Your task to perform on an android device: Find a nice sofa on eBay Image 0: 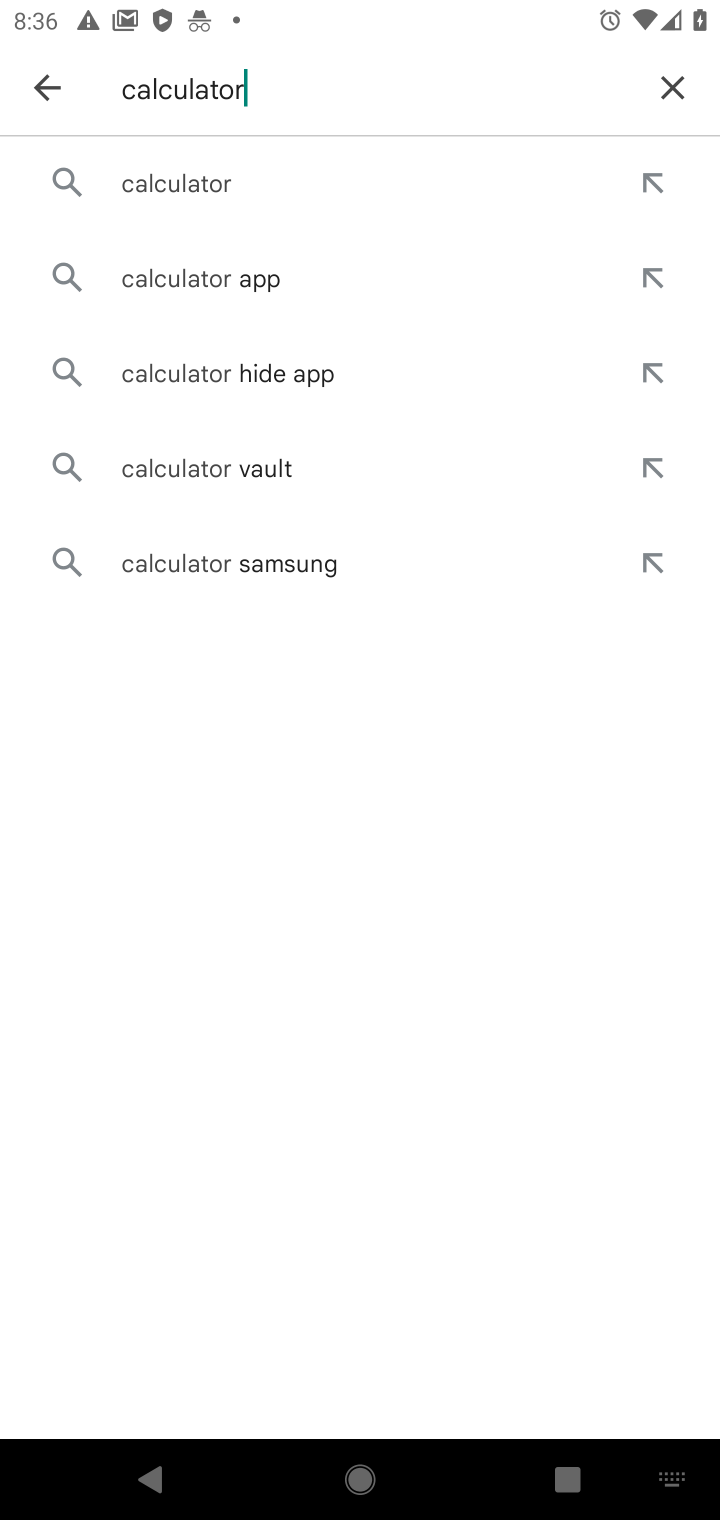
Step 0: press home button
Your task to perform on an android device: Find a nice sofa on eBay Image 1: 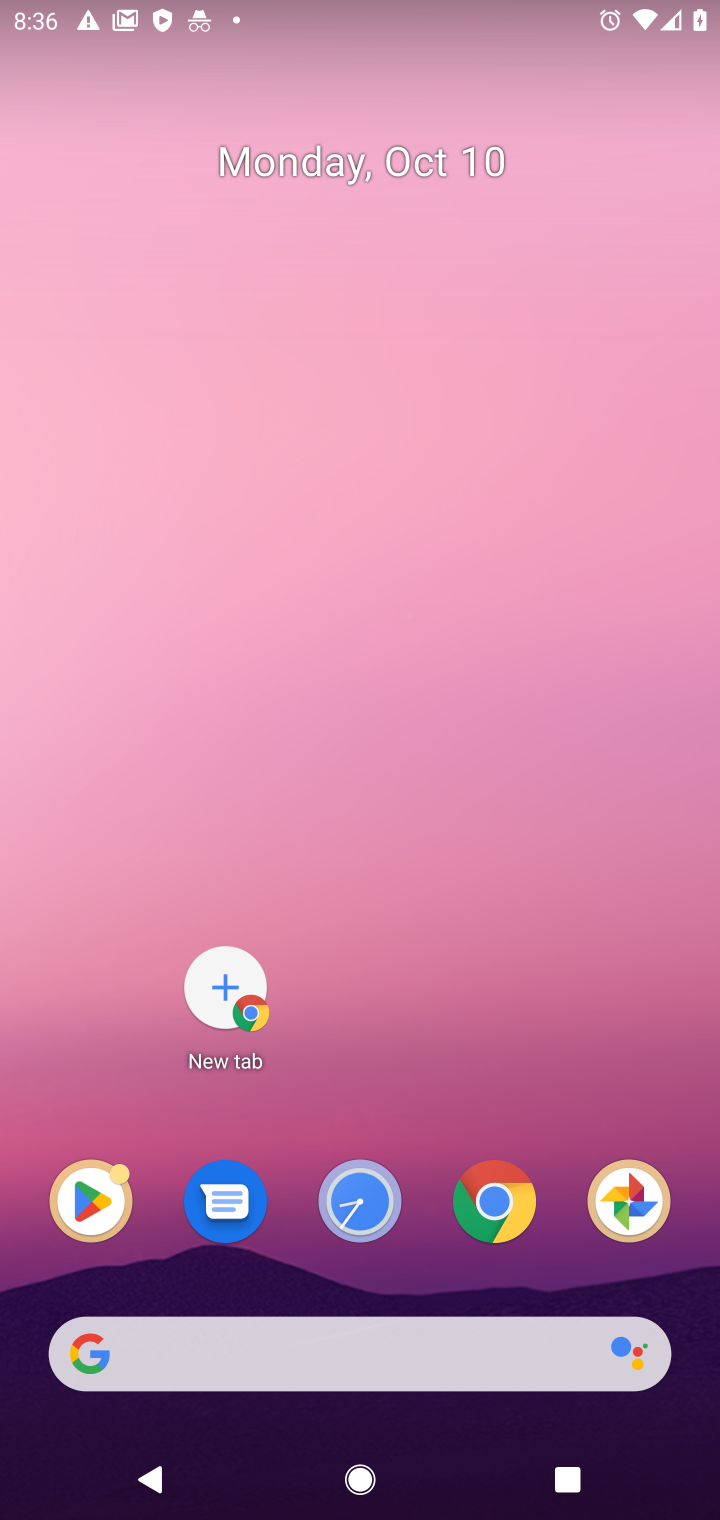
Step 1: click (228, 994)
Your task to perform on an android device: Find a nice sofa on eBay Image 2: 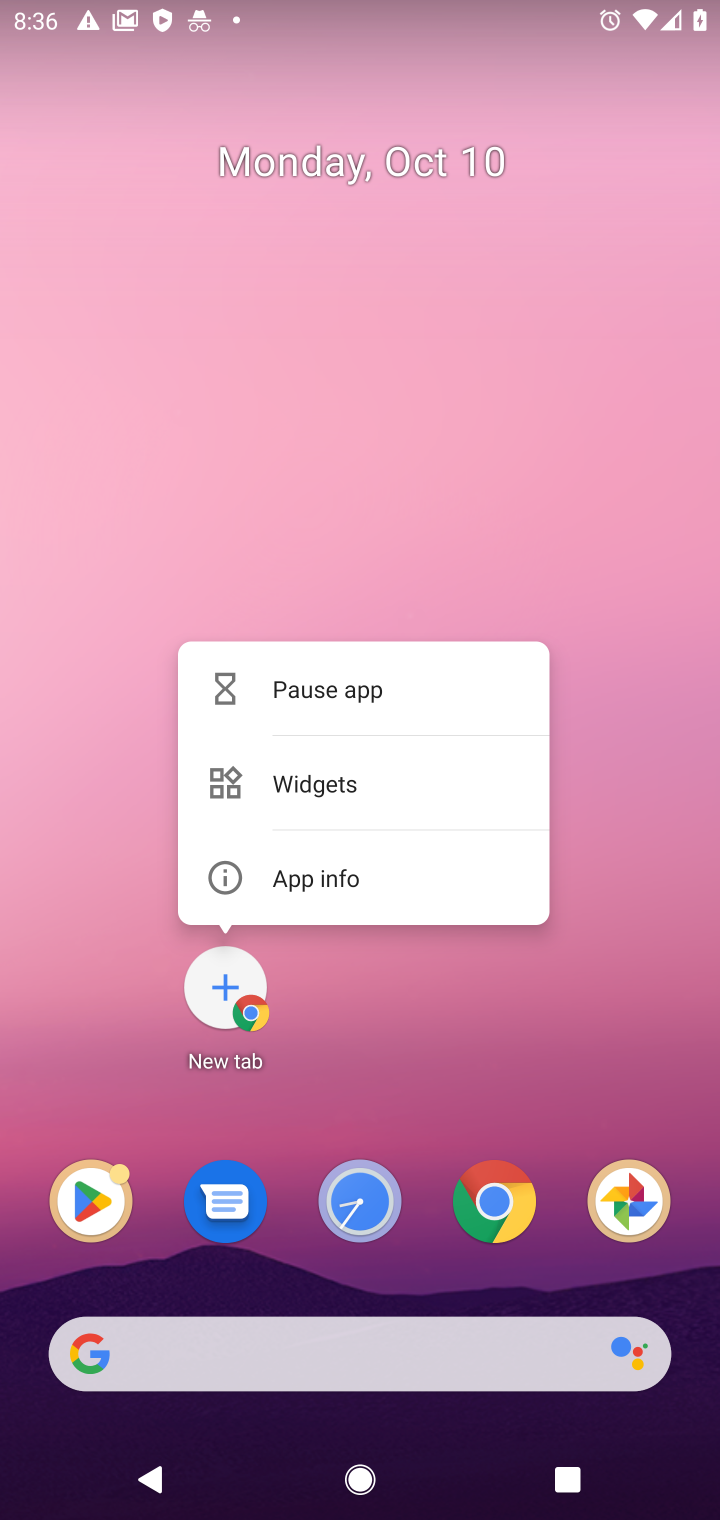
Step 2: click (421, 503)
Your task to perform on an android device: Find a nice sofa on eBay Image 3: 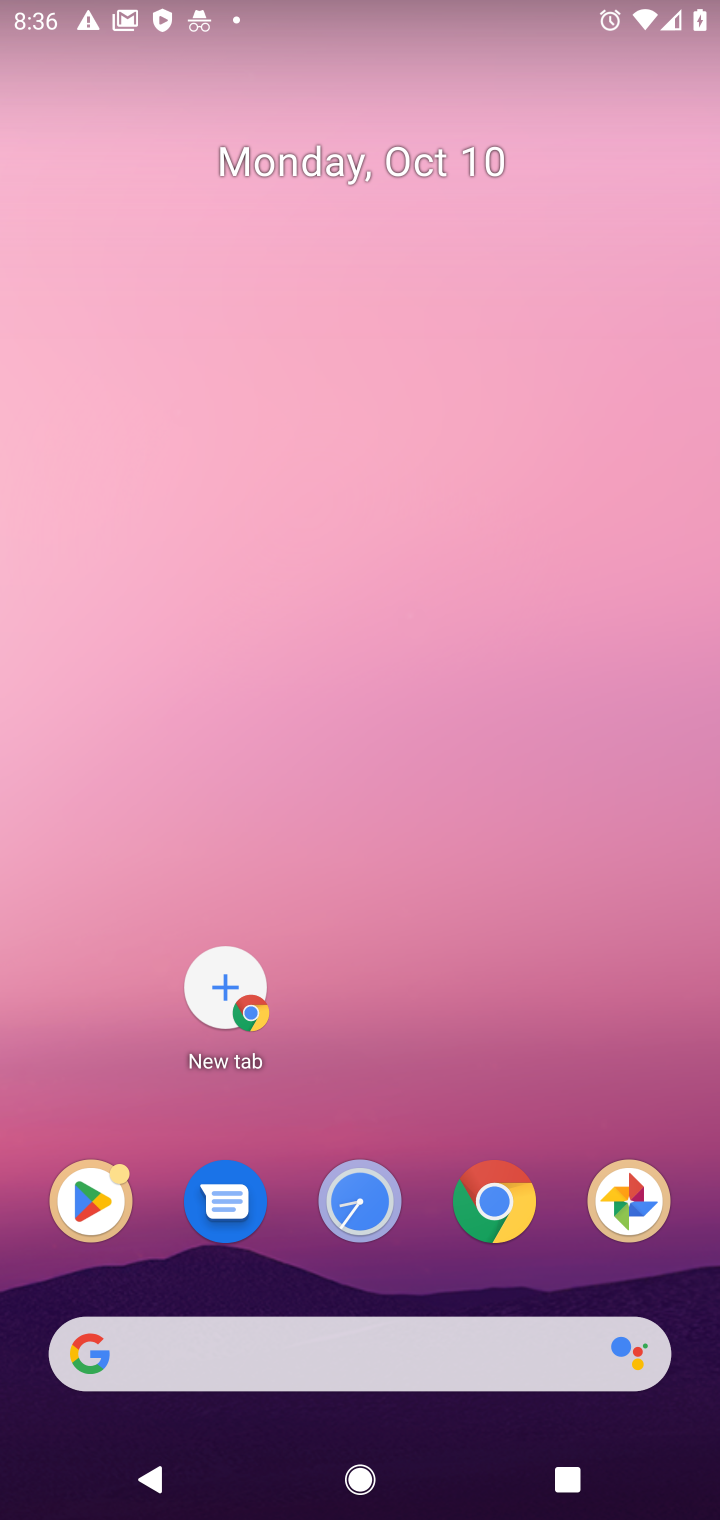
Step 3: click (241, 1018)
Your task to perform on an android device: Find a nice sofa on eBay Image 4: 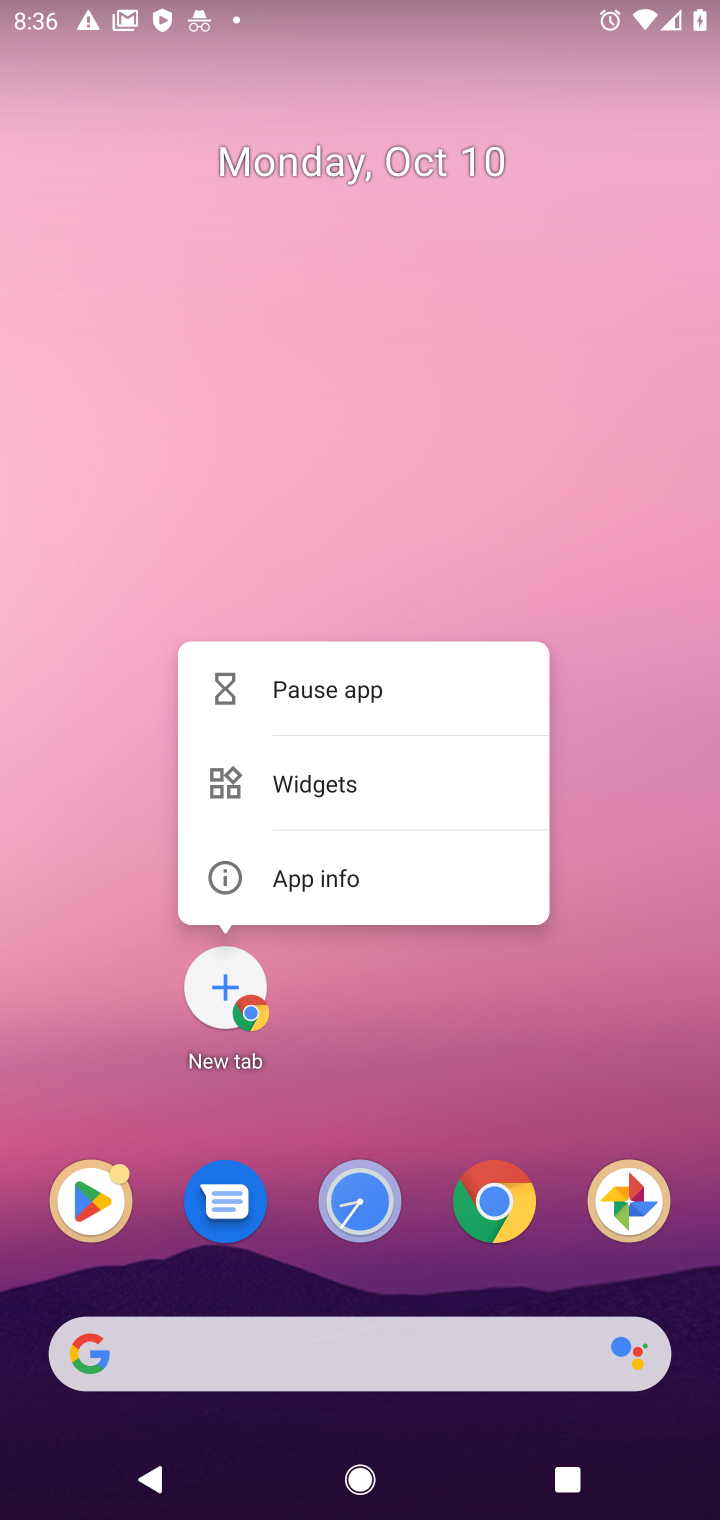
Step 4: drag from (395, 1447) to (693, 25)
Your task to perform on an android device: Find a nice sofa on eBay Image 5: 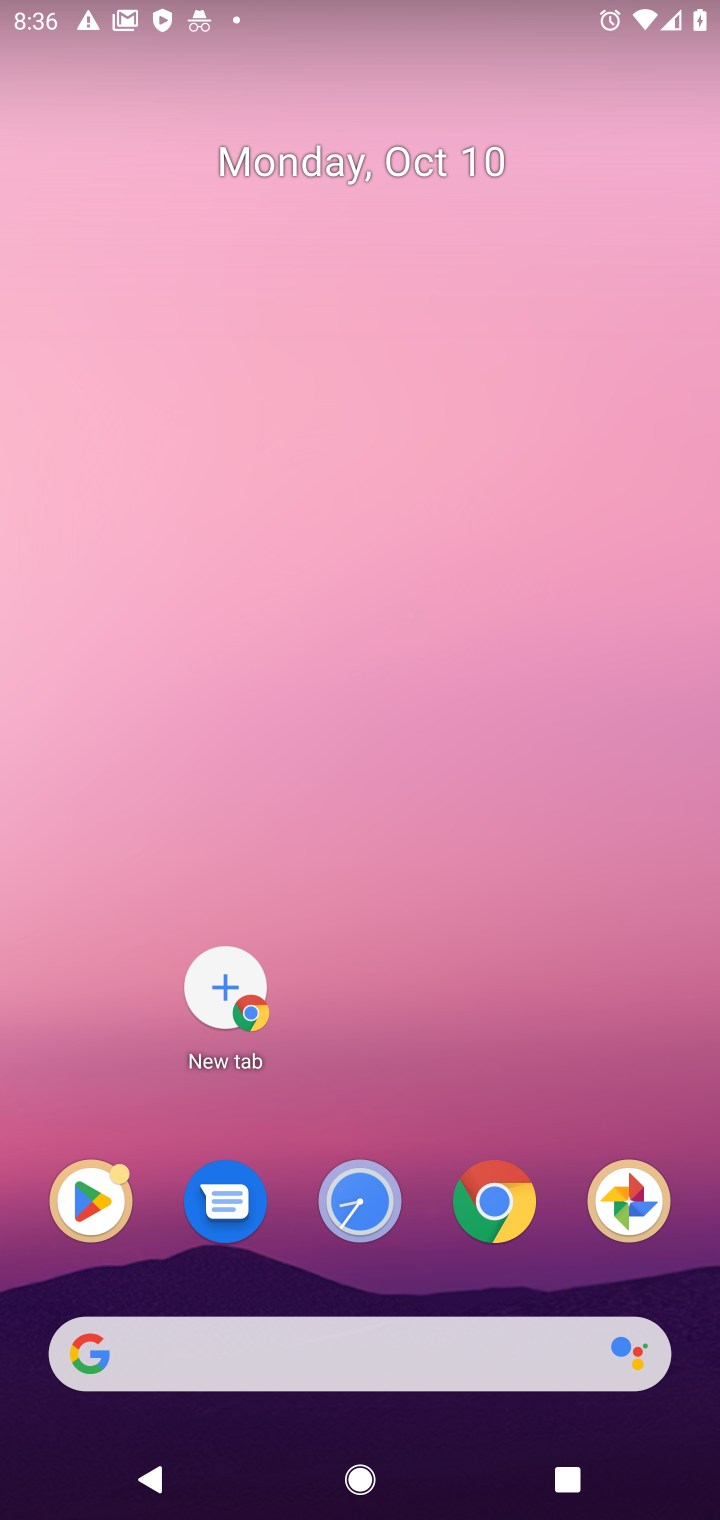
Step 5: drag from (367, 1267) to (403, 37)
Your task to perform on an android device: Find a nice sofa on eBay Image 6: 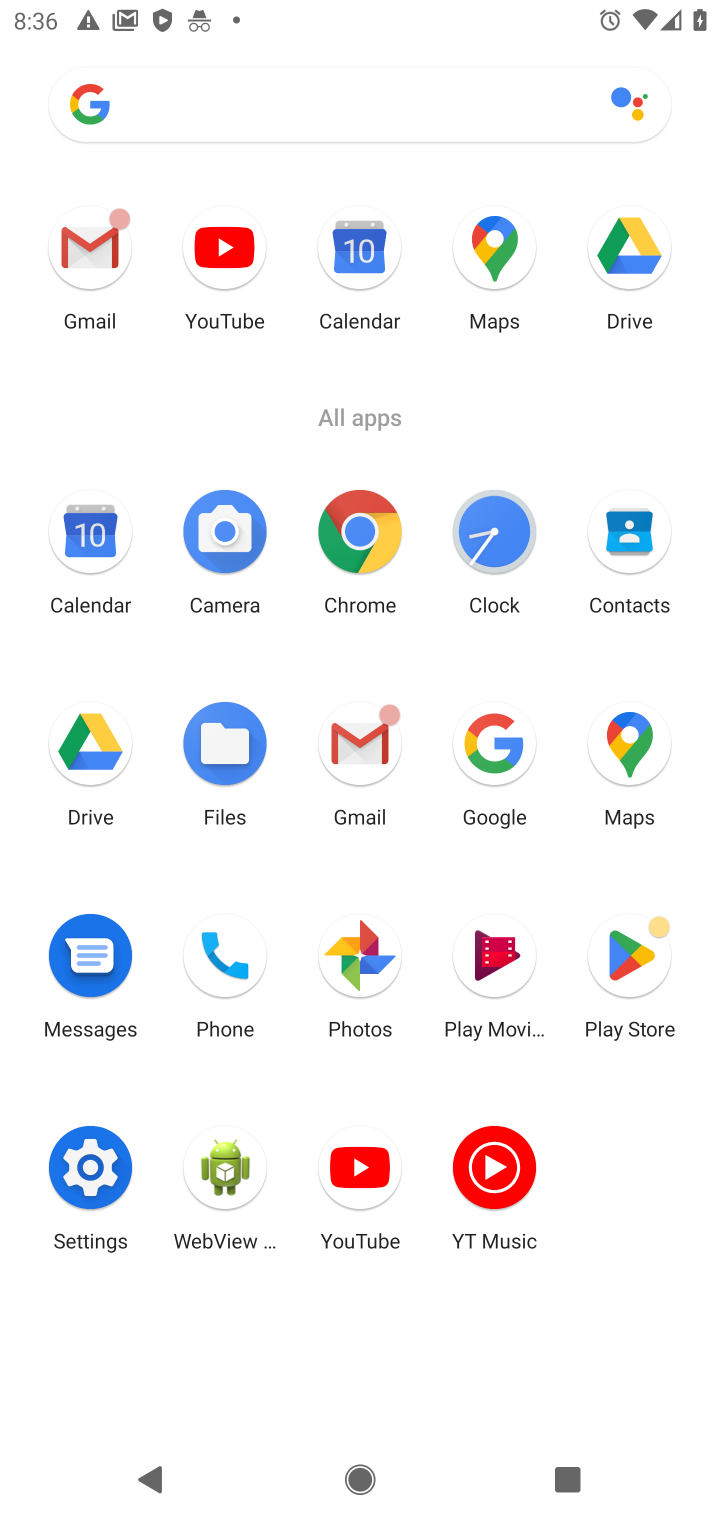
Step 6: click (369, 558)
Your task to perform on an android device: Find a nice sofa on eBay Image 7: 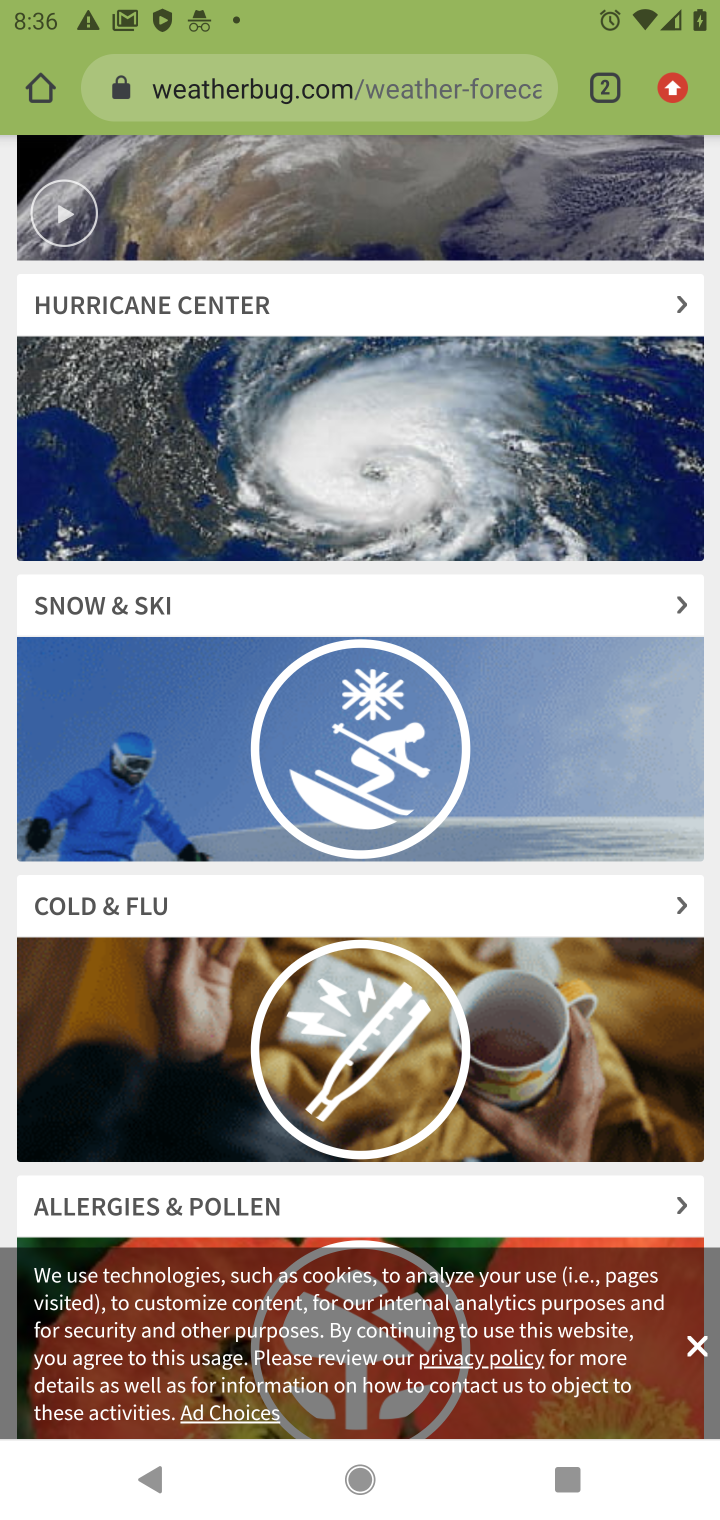
Step 7: click (254, 60)
Your task to perform on an android device: Find a nice sofa on eBay Image 8: 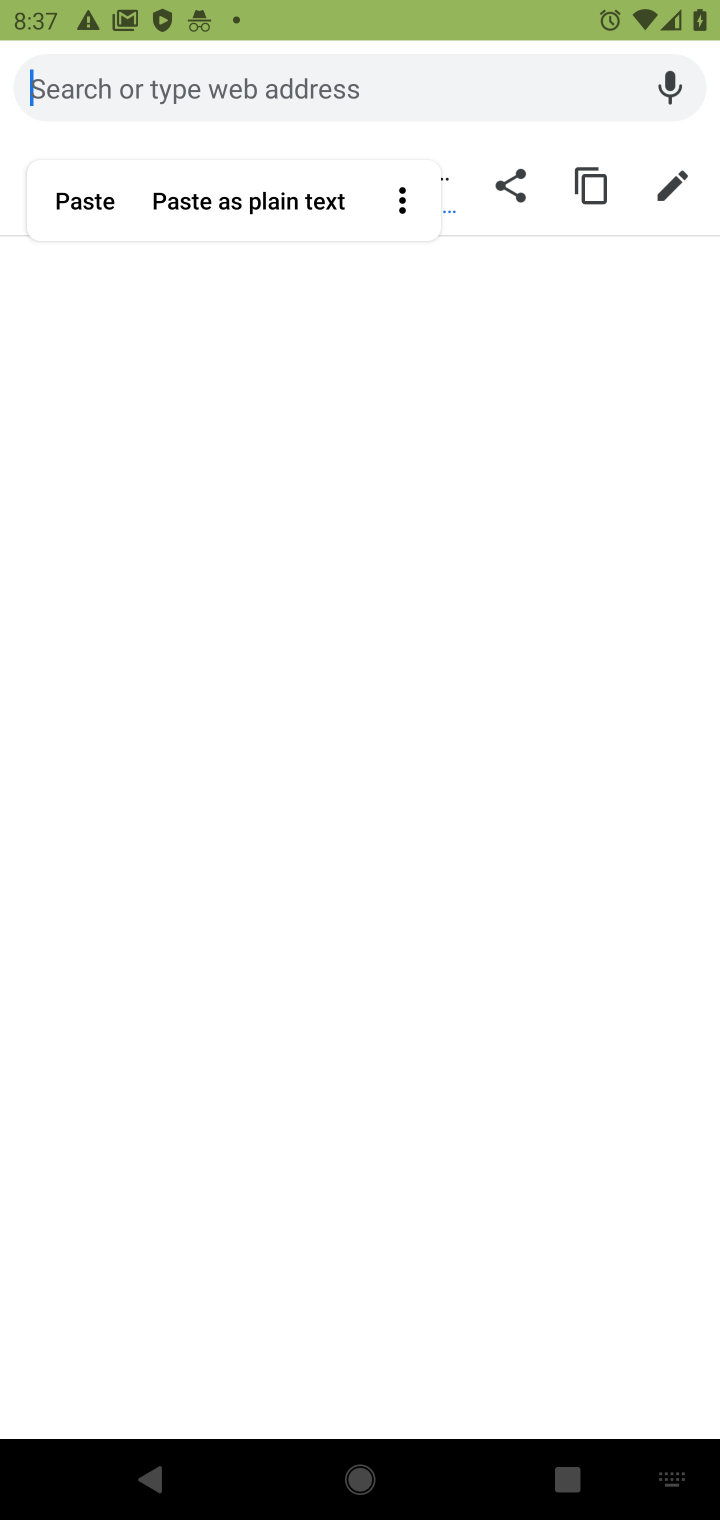
Step 8: type "a nice sofa on eBay"
Your task to perform on an android device: Find a nice sofa on eBay Image 9: 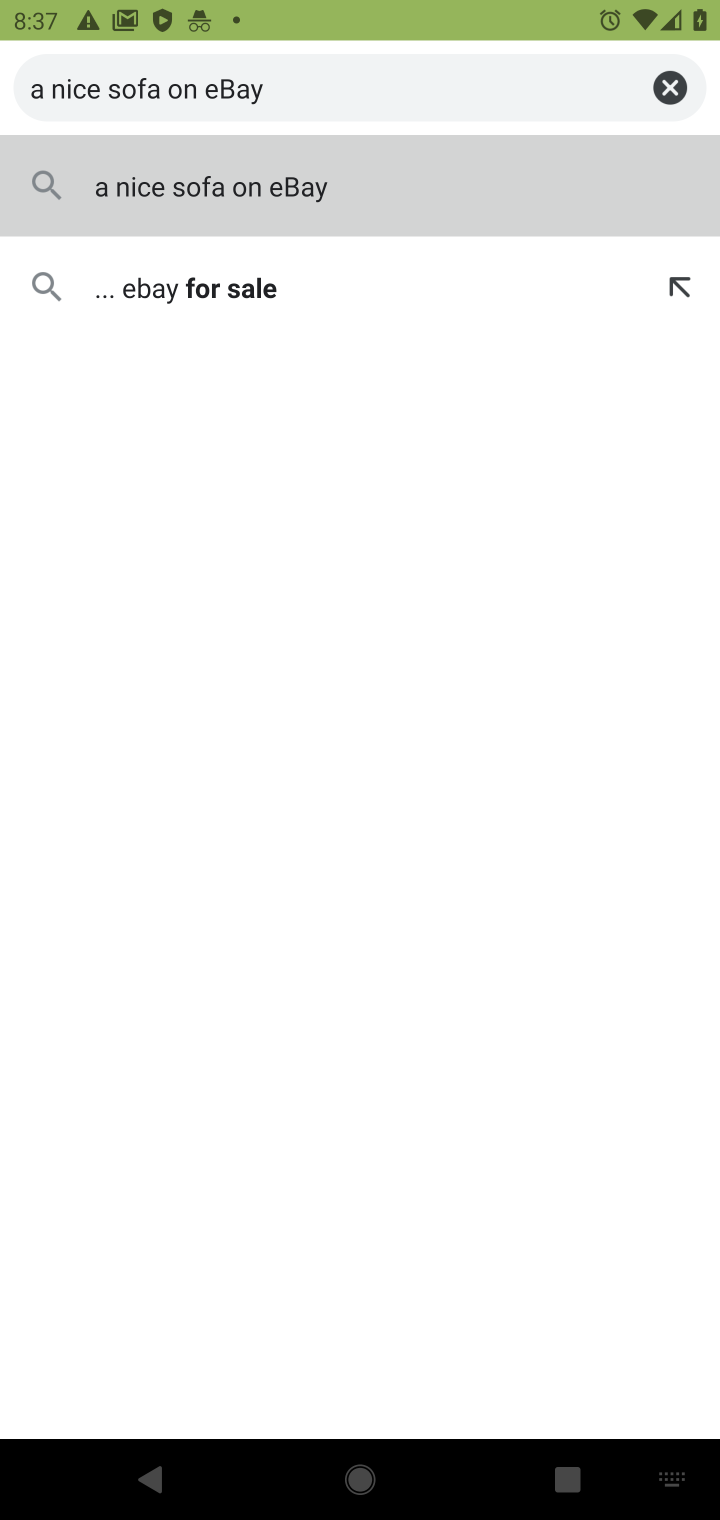
Step 9: type ""
Your task to perform on an android device: Find a nice sofa on eBay Image 10: 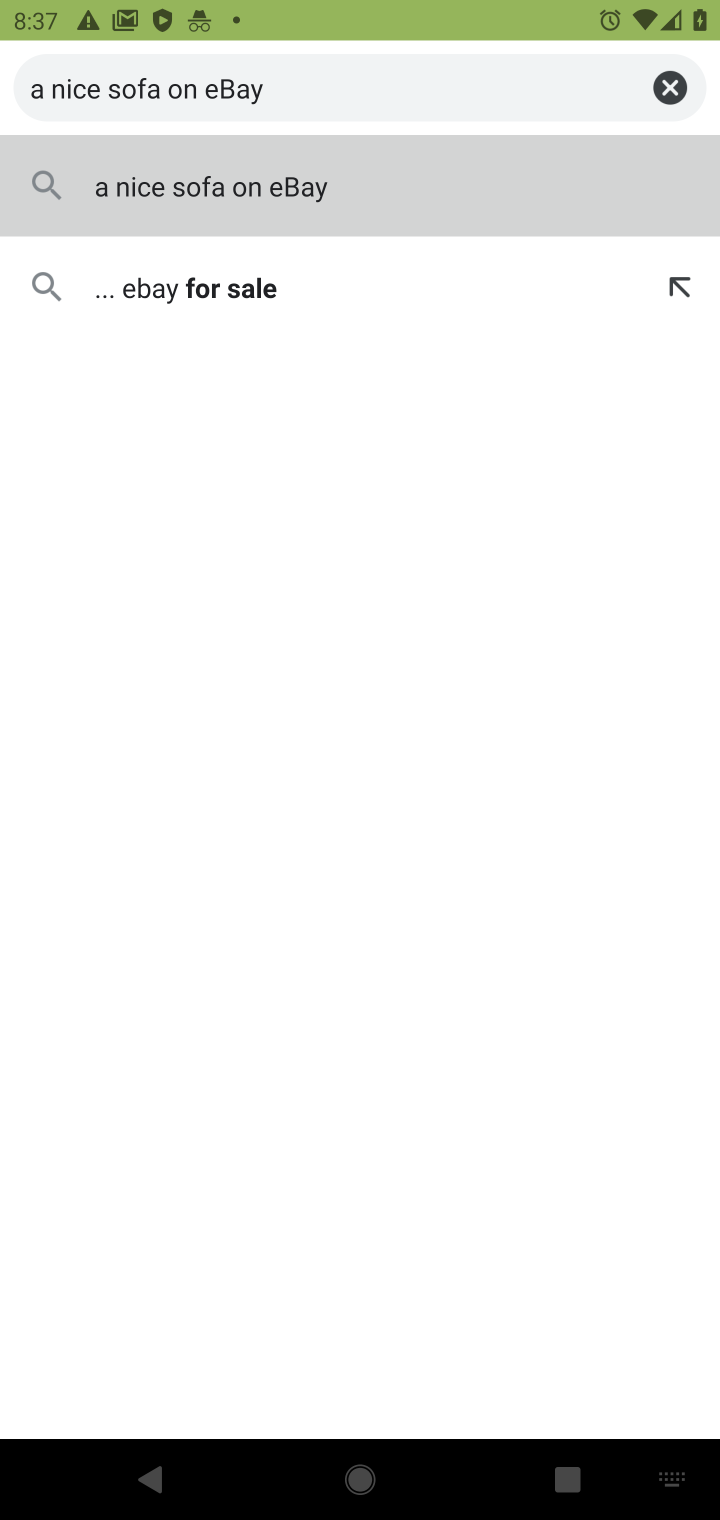
Step 10: press enter
Your task to perform on an android device: Find a nice sofa on eBay Image 11: 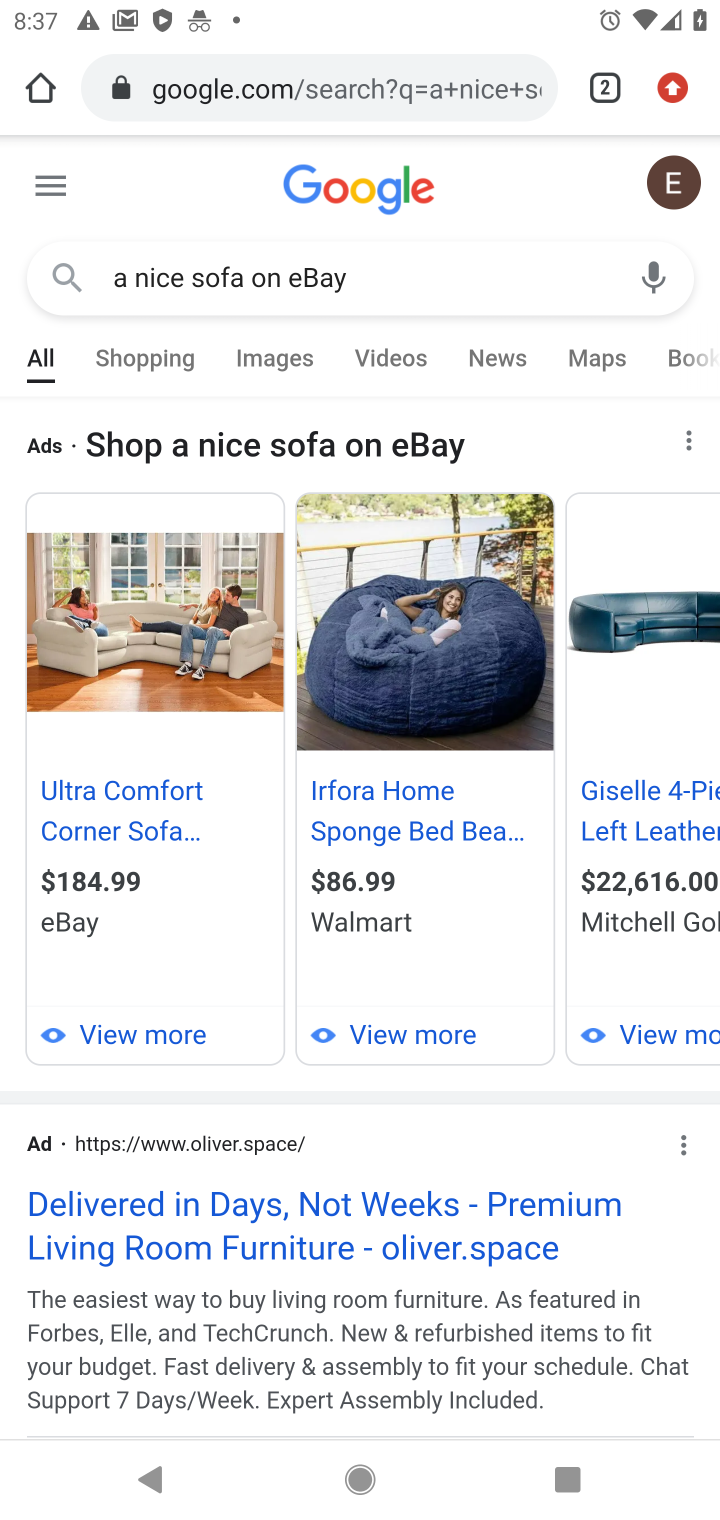
Step 11: click (97, 821)
Your task to perform on an android device: Find a nice sofa on eBay Image 12: 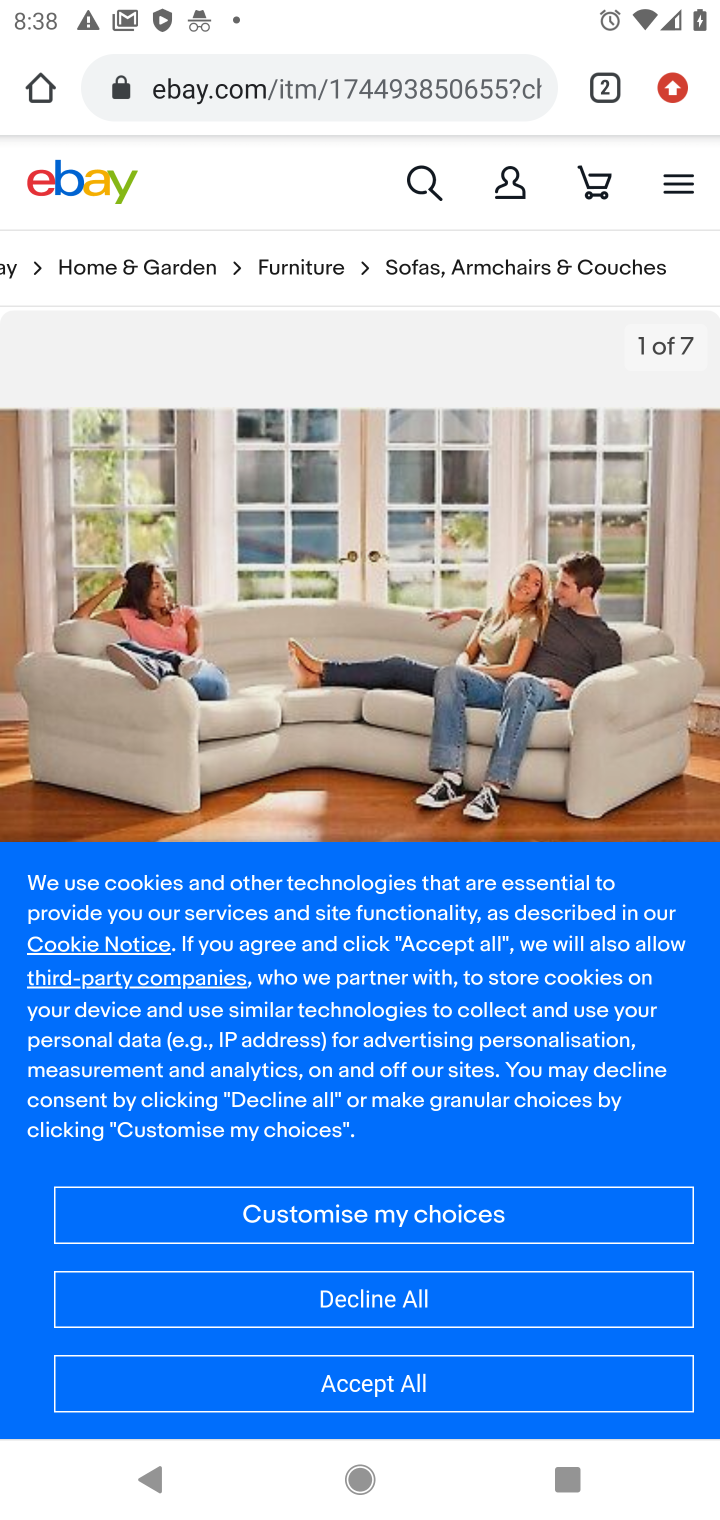
Step 12: drag from (461, 851) to (616, 369)
Your task to perform on an android device: Find a nice sofa on eBay Image 13: 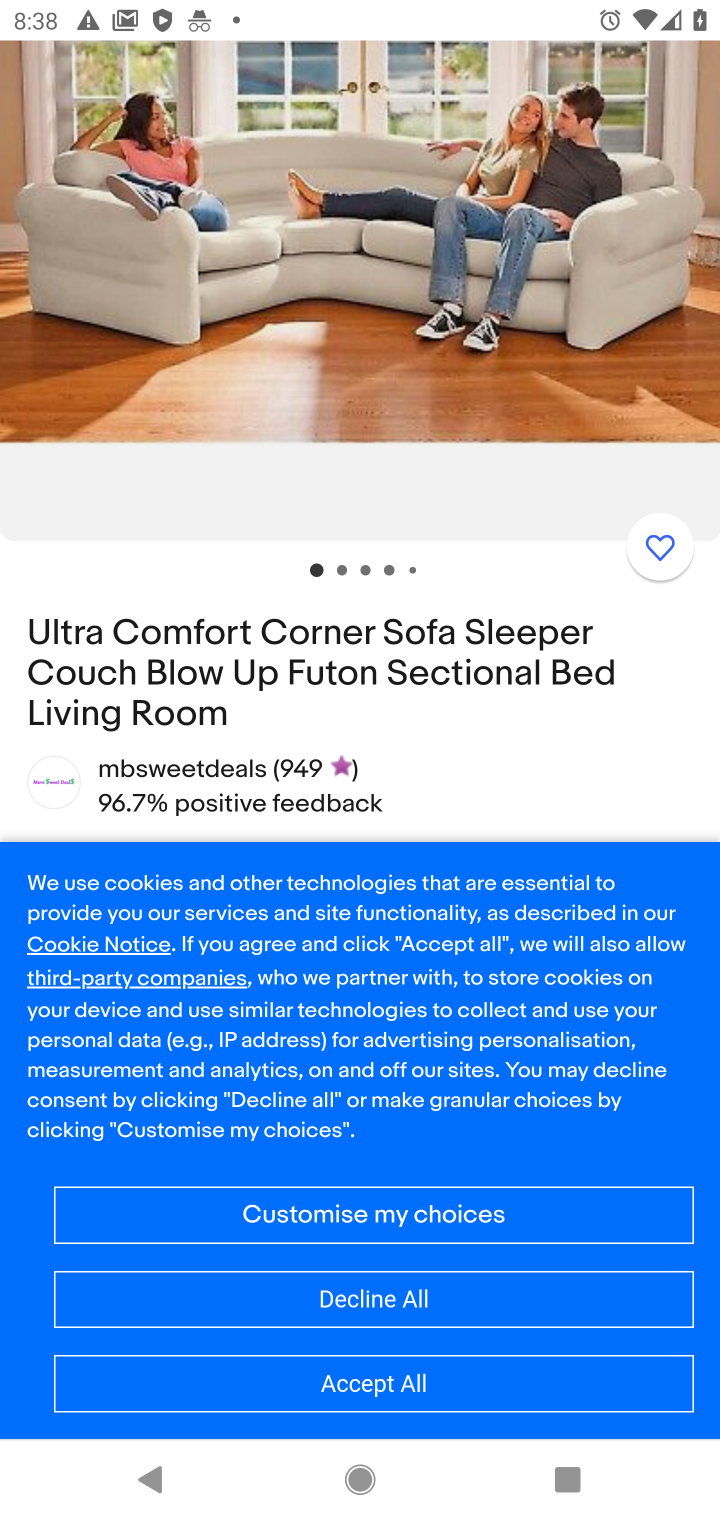
Step 13: click (387, 1384)
Your task to perform on an android device: Find a nice sofa on eBay Image 14: 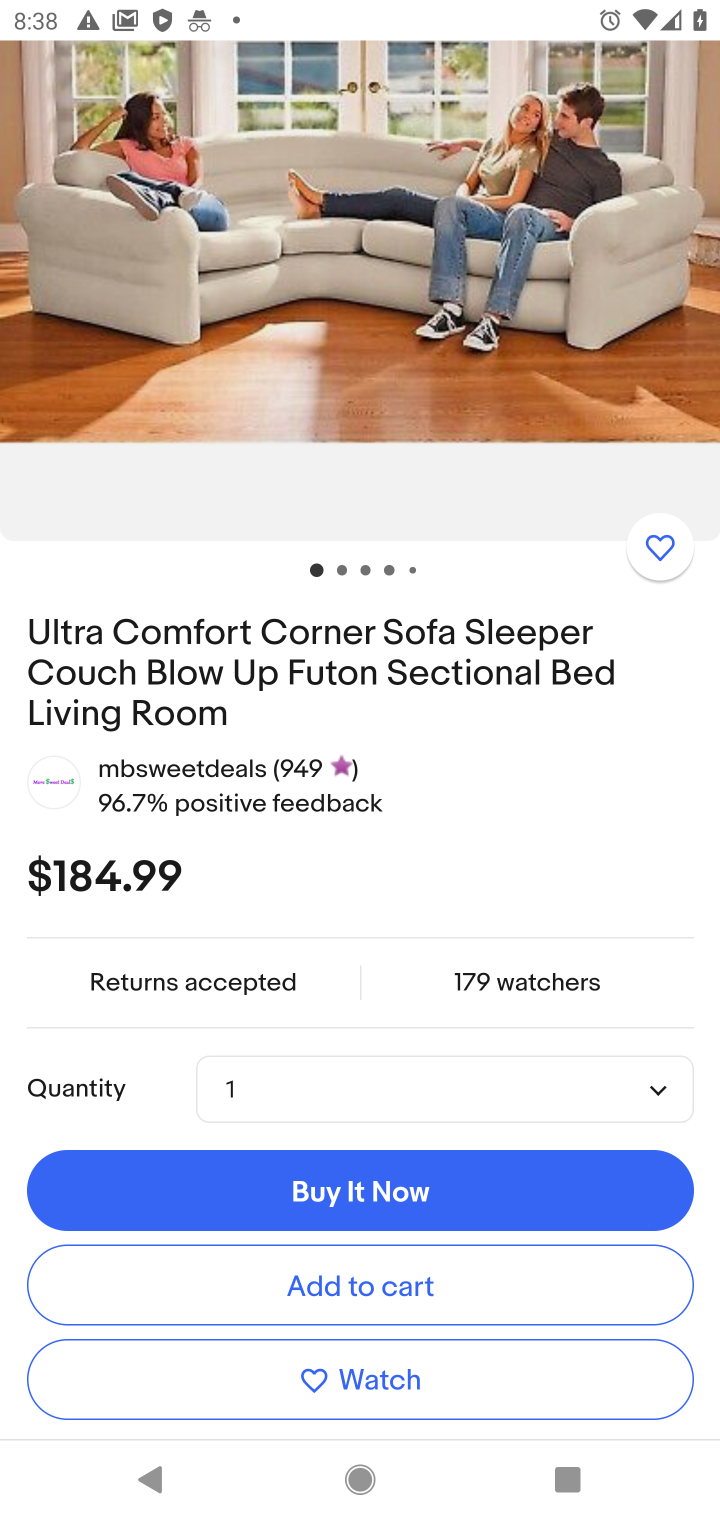
Step 14: click (373, 519)
Your task to perform on an android device: Find a nice sofa on eBay Image 15: 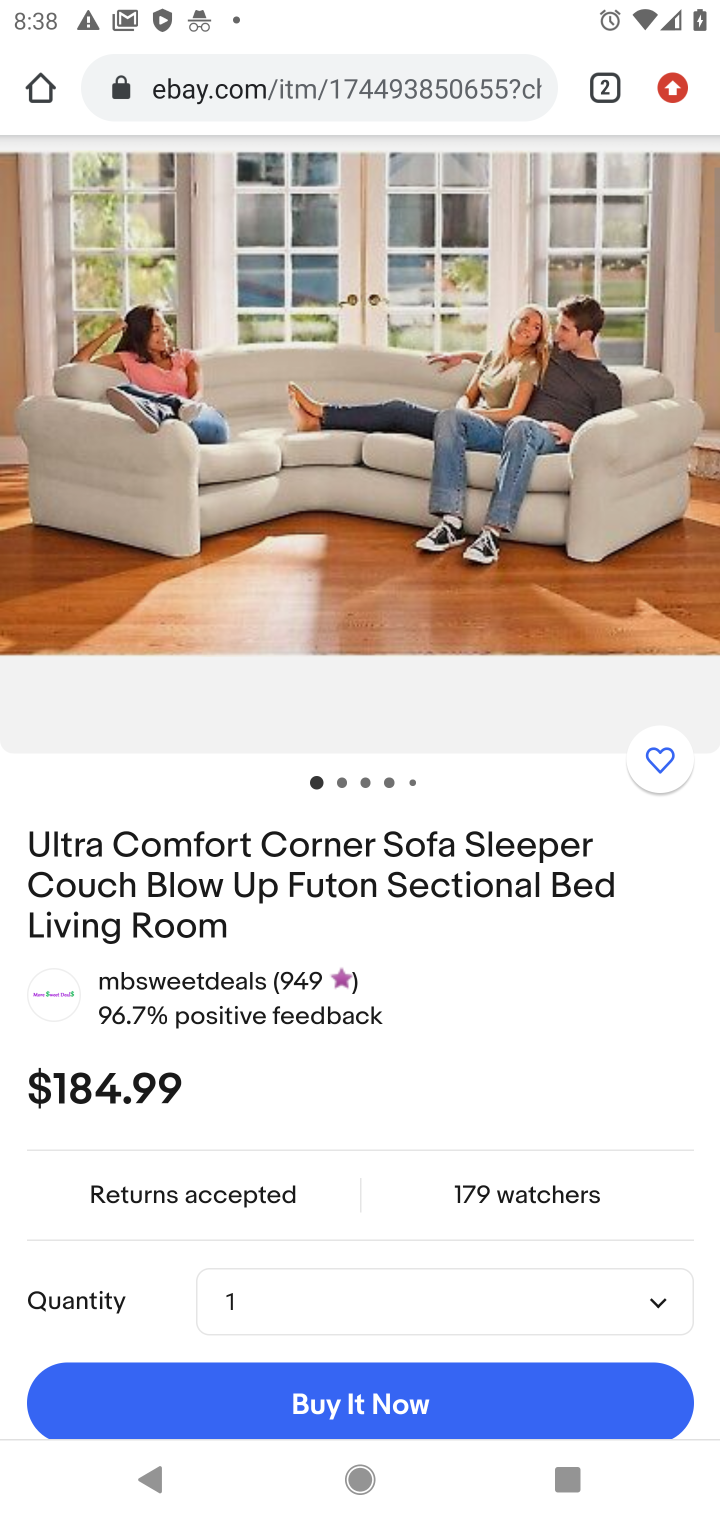
Step 15: drag from (348, 764) to (424, 296)
Your task to perform on an android device: Find a nice sofa on eBay Image 16: 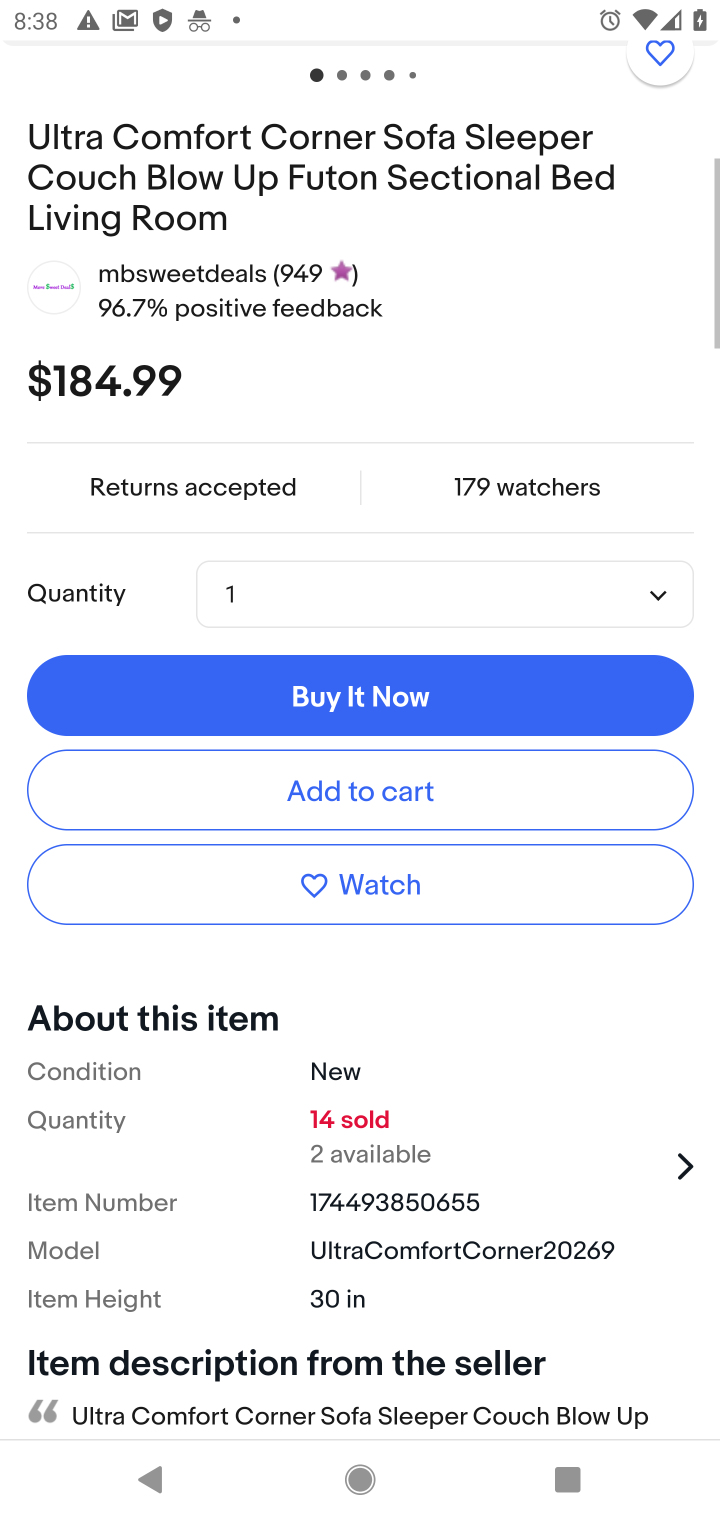
Step 16: drag from (371, 1094) to (467, 446)
Your task to perform on an android device: Find a nice sofa on eBay Image 17: 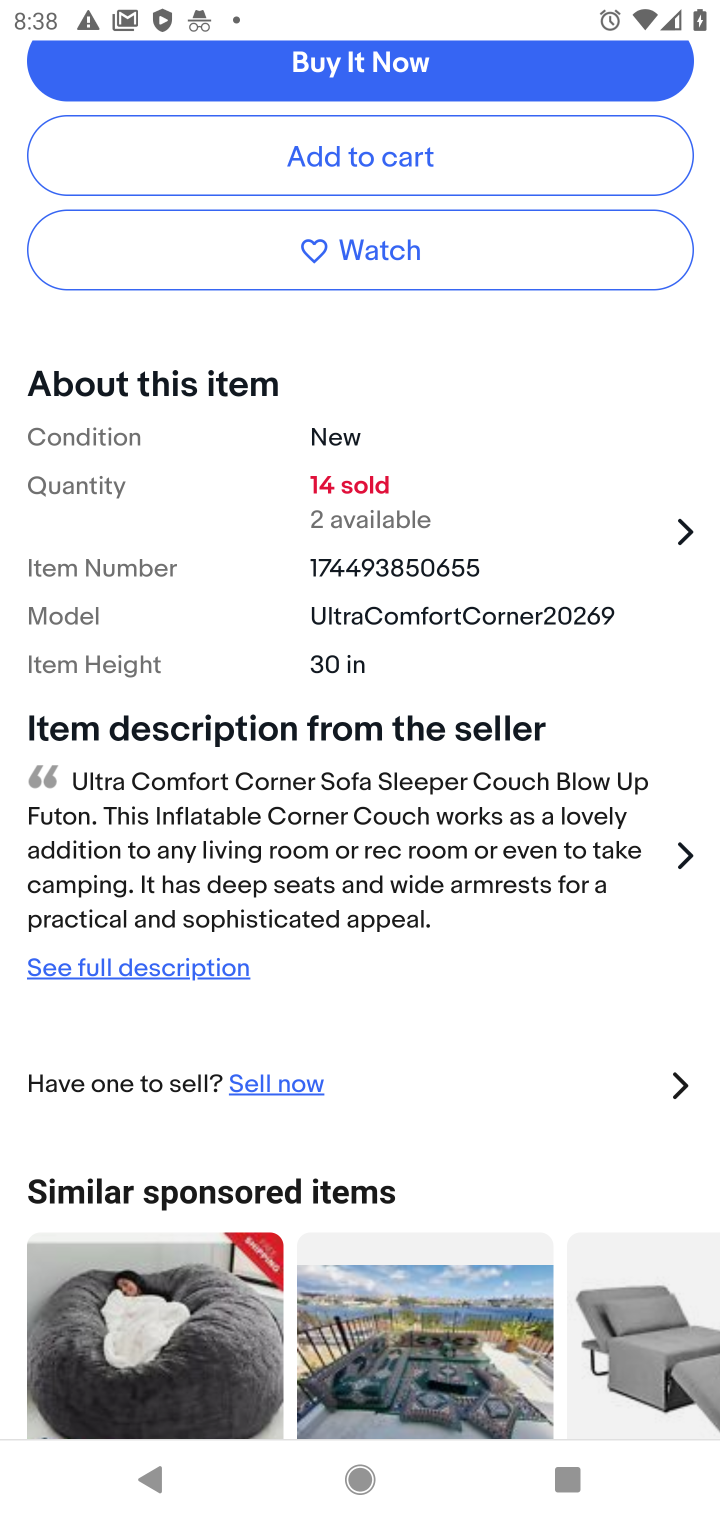
Step 17: drag from (347, 1229) to (531, 398)
Your task to perform on an android device: Find a nice sofa on eBay Image 18: 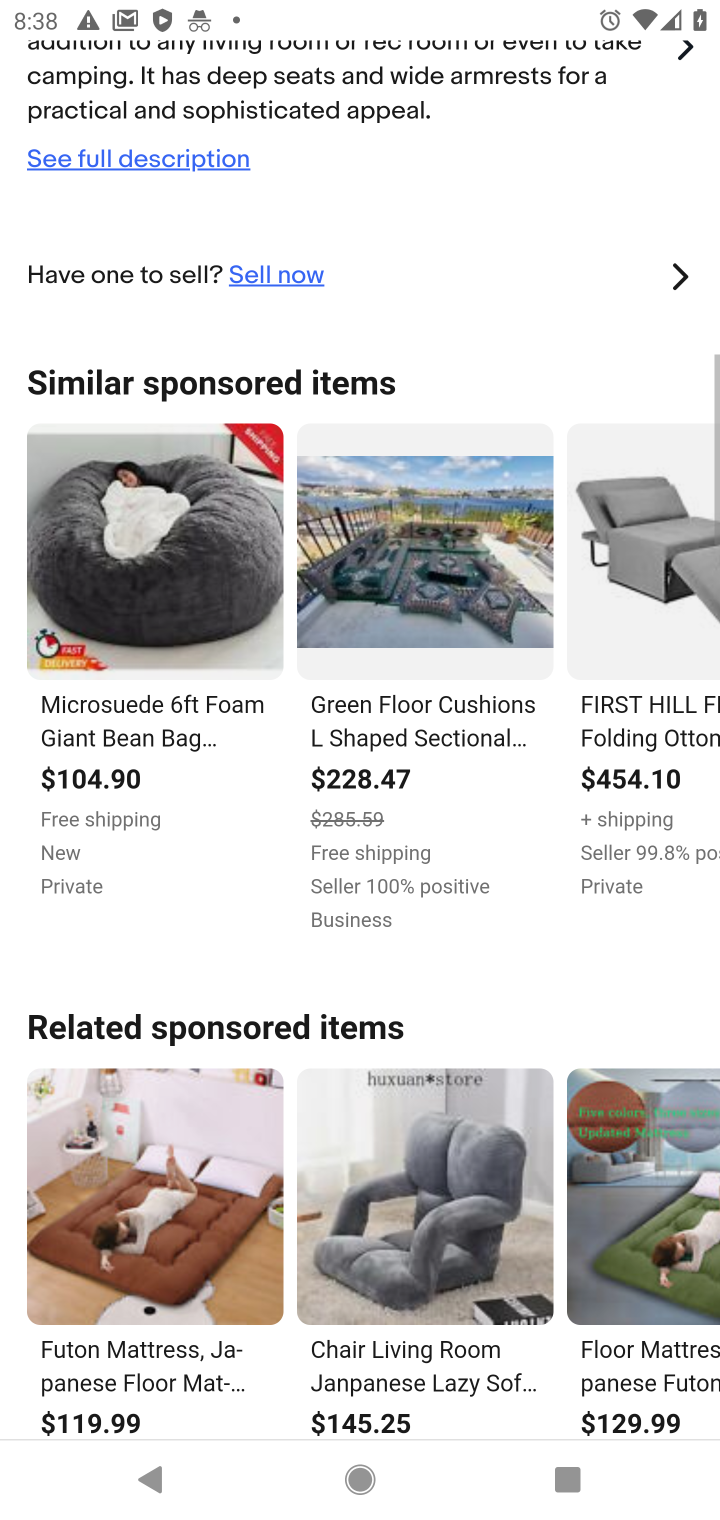
Step 18: drag from (426, 580) to (470, 171)
Your task to perform on an android device: Find a nice sofa on eBay Image 19: 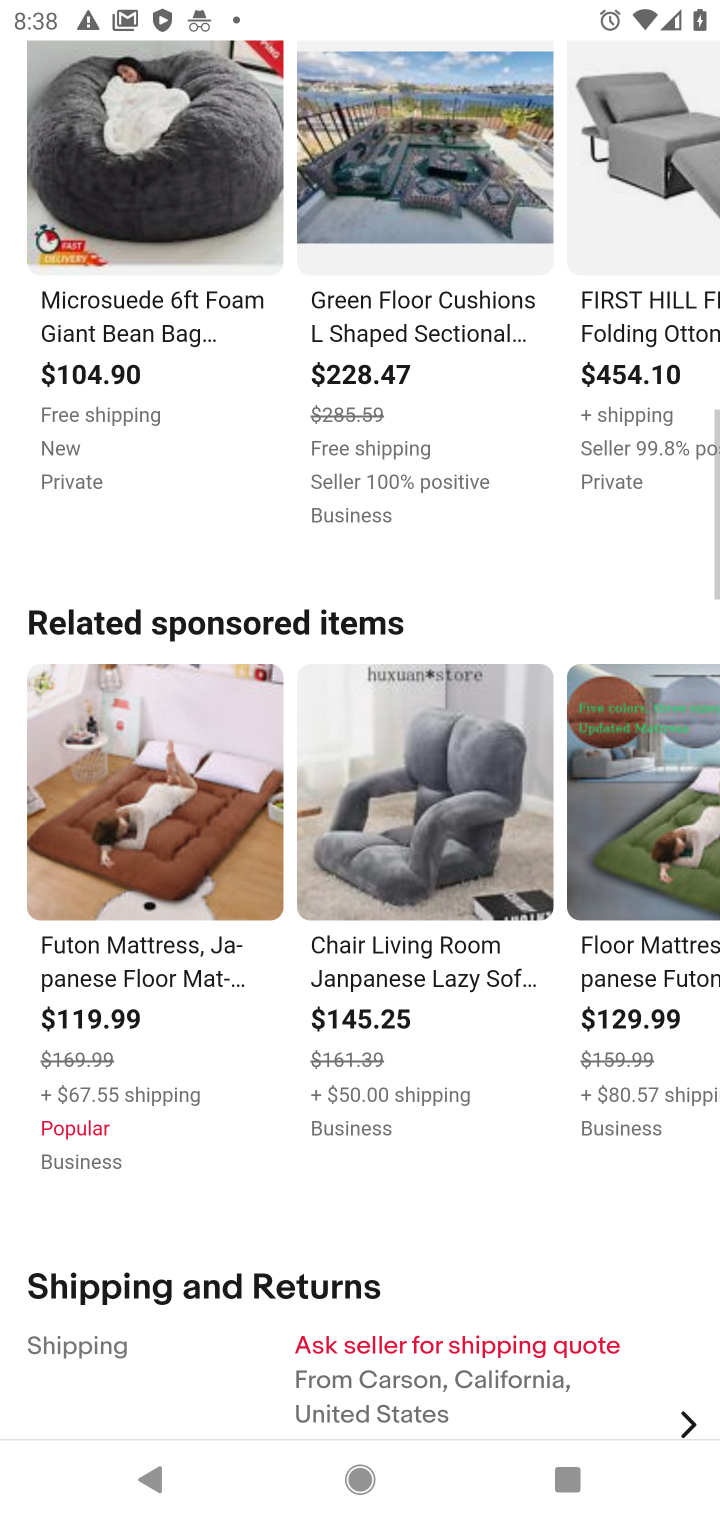
Step 19: drag from (475, 359) to (504, 246)
Your task to perform on an android device: Find a nice sofa on eBay Image 20: 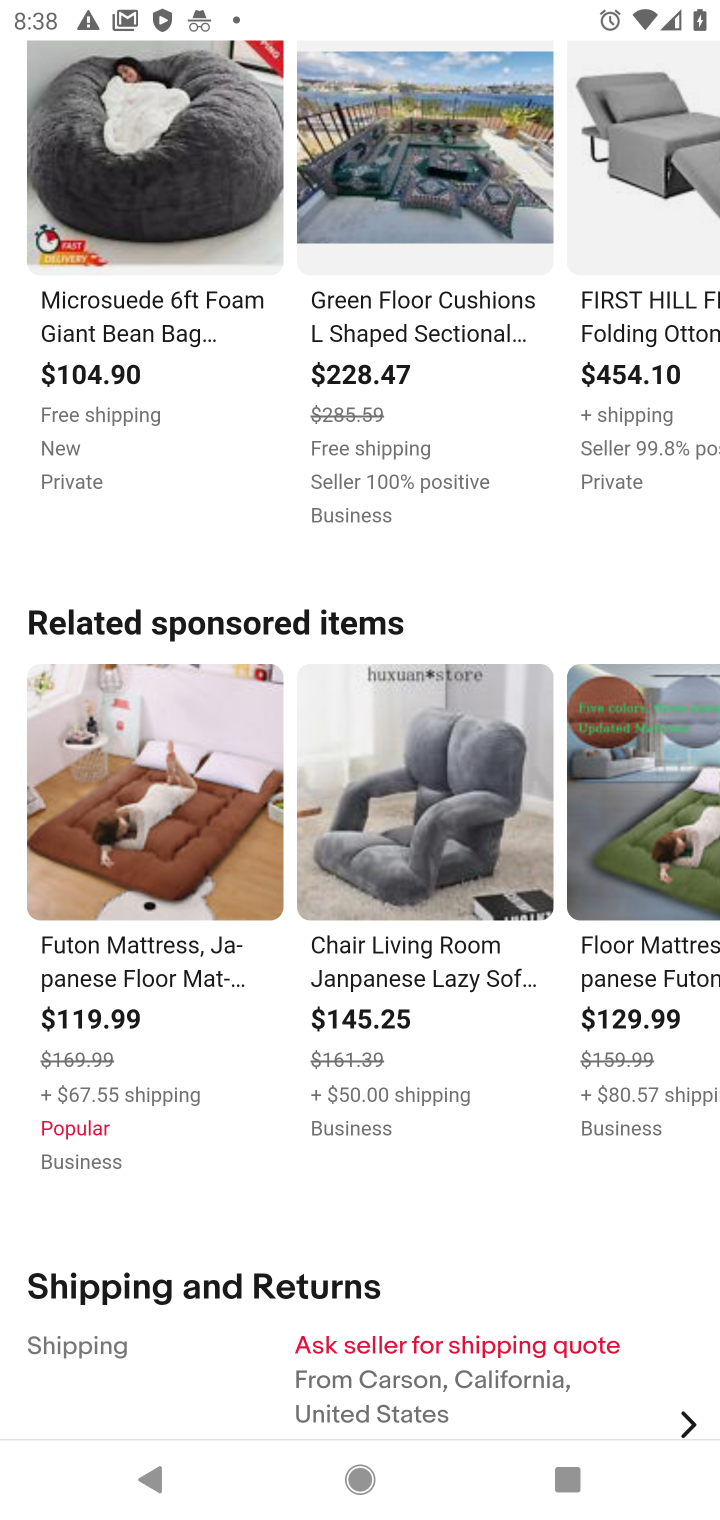
Step 20: drag from (443, 738) to (503, 143)
Your task to perform on an android device: Find a nice sofa on eBay Image 21: 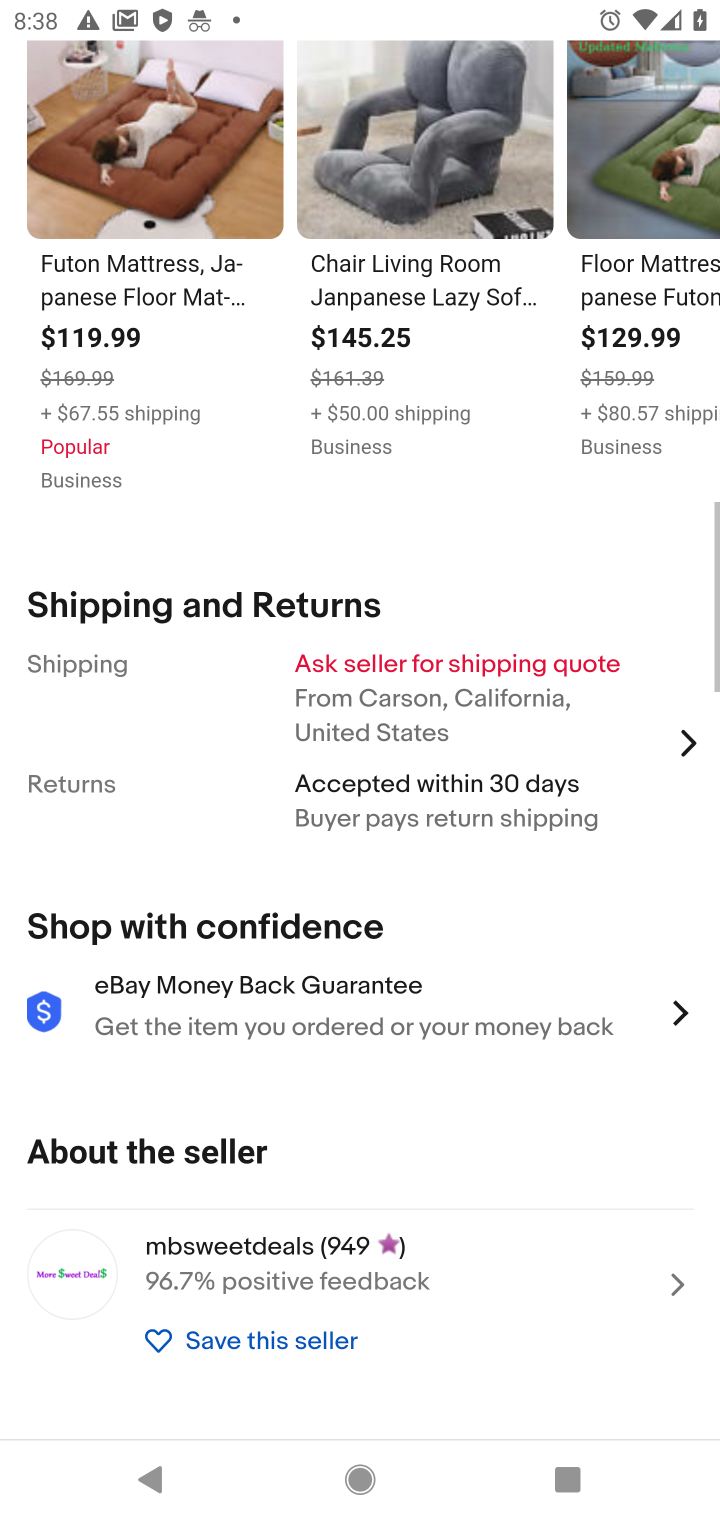
Step 21: drag from (471, 362) to (483, 148)
Your task to perform on an android device: Find a nice sofa on eBay Image 22: 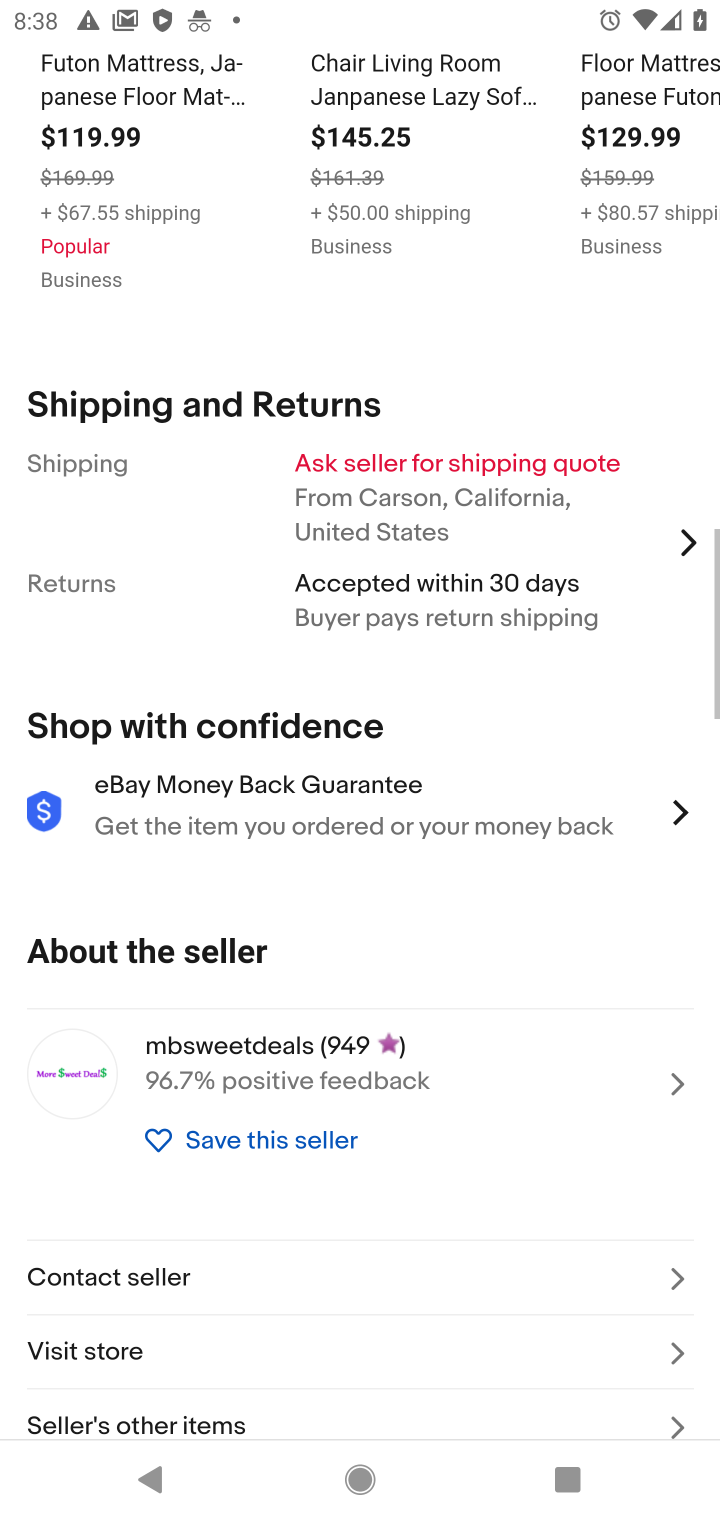
Step 22: drag from (522, 765) to (576, 101)
Your task to perform on an android device: Find a nice sofa on eBay Image 23: 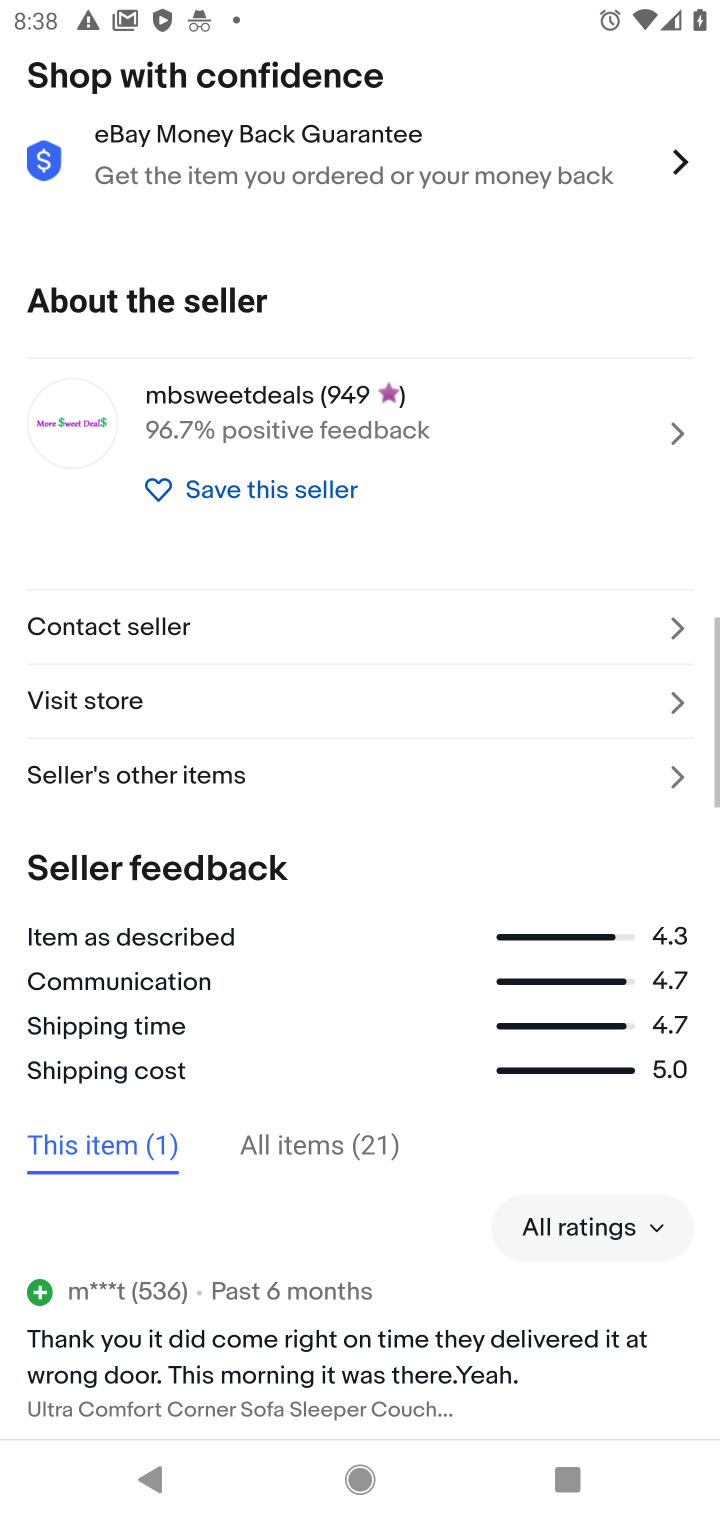
Step 23: drag from (503, 1102) to (510, 157)
Your task to perform on an android device: Find a nice sofa on eBay Image 24: 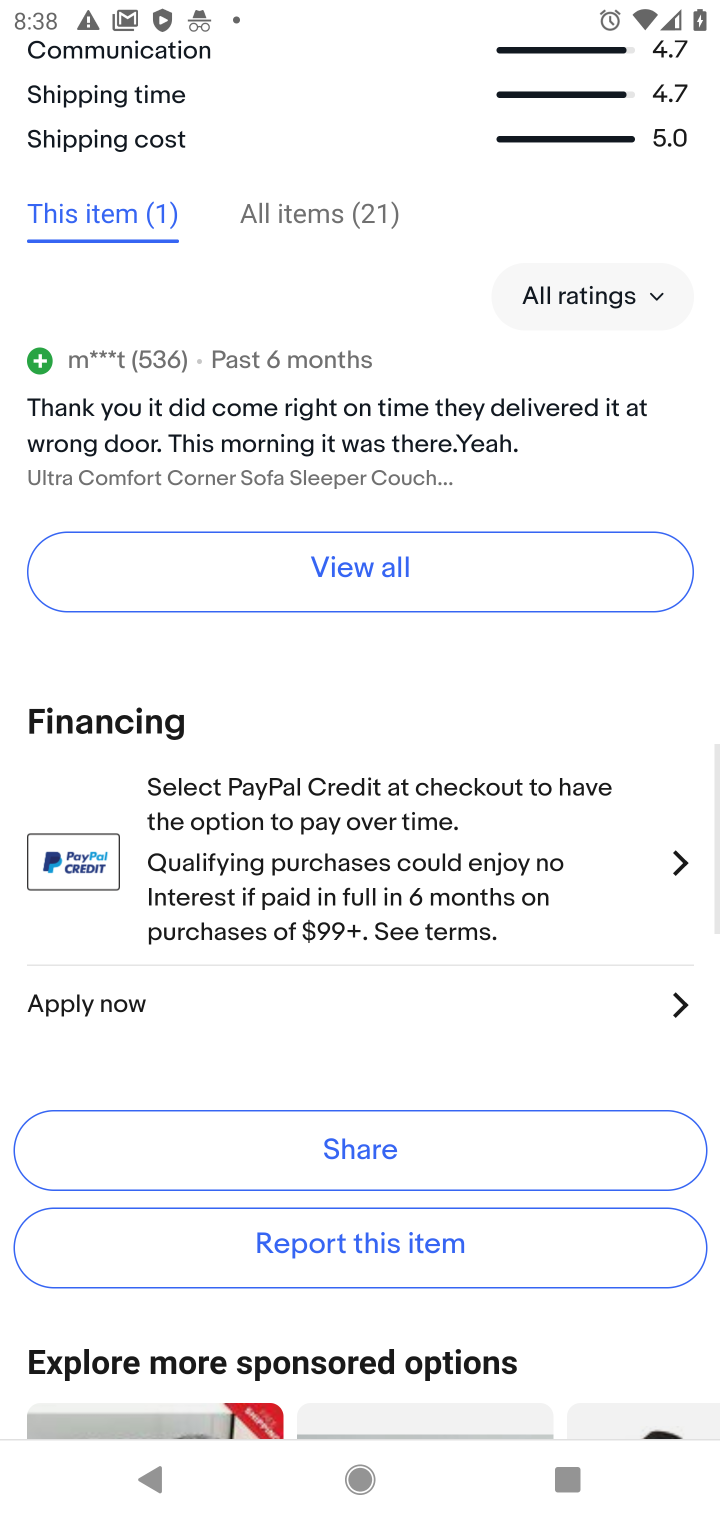
Step 24: drag from (537, 949) to (515, 149)
Your task to perform on an android device: Find a nice sofa on eBay Image 25: 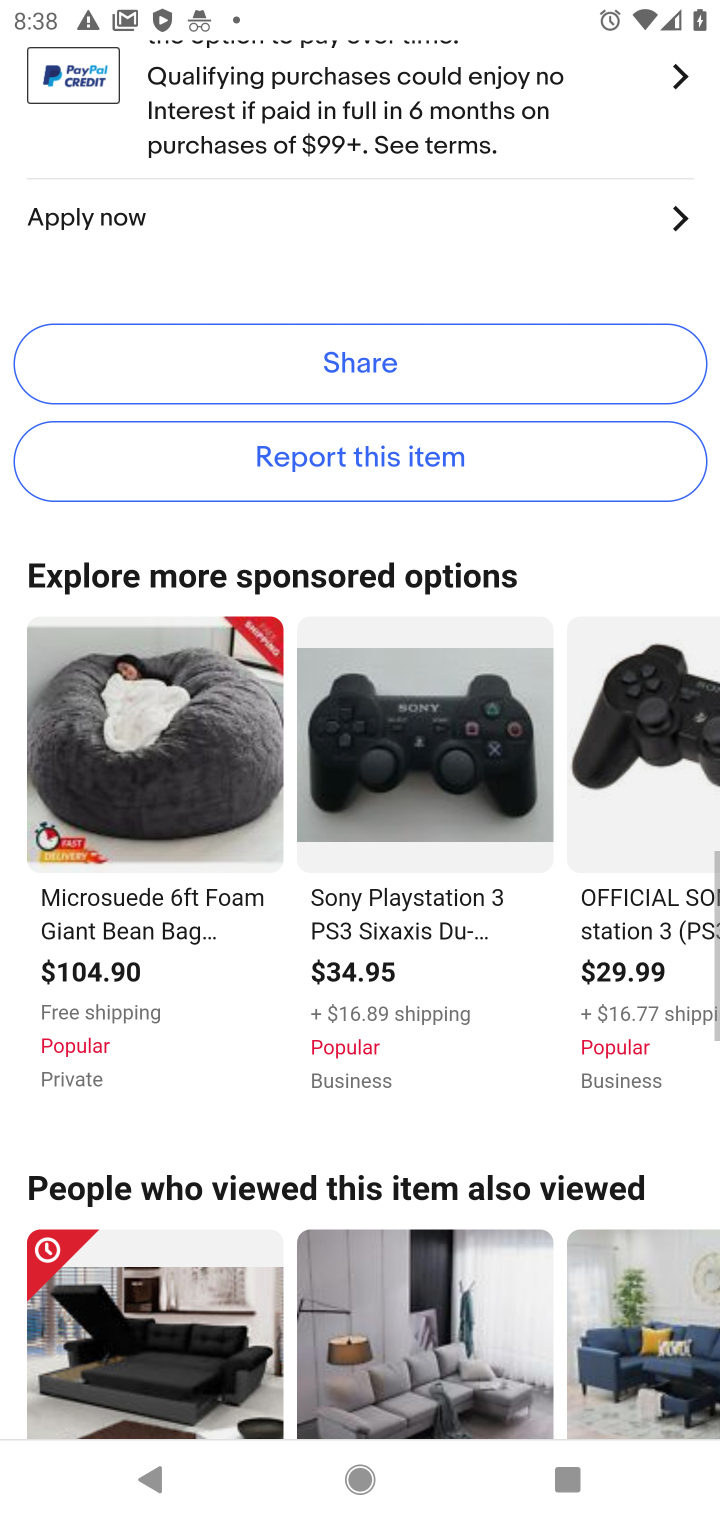
Step 25: drag from (615, 705) to (668, 140)
Your task to perform on an android device: Find a nice sofa on eBay Image 26: 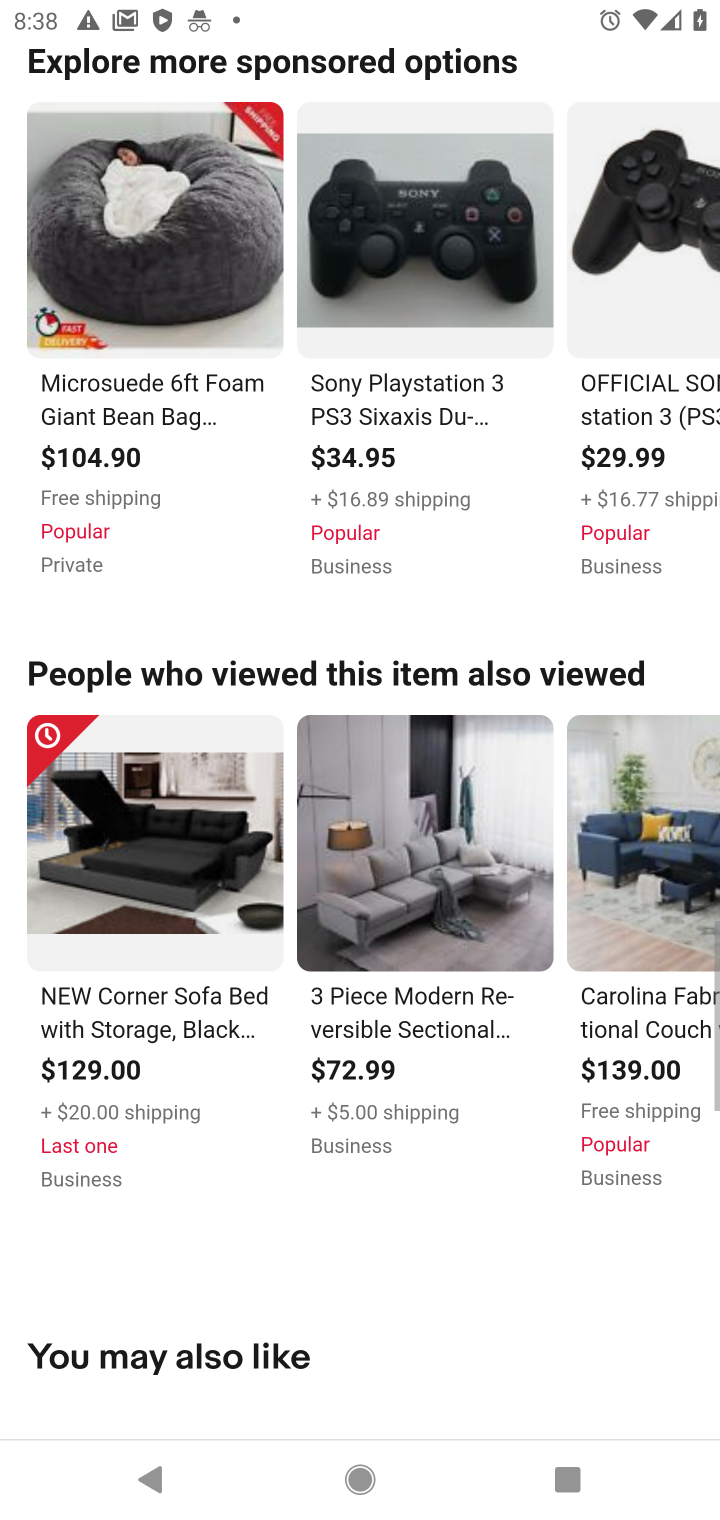
Step 26: drag from (418, 1073) to (453, 50)
Your task to perform on an android device: Find a nice sofa on eBay Image 27: 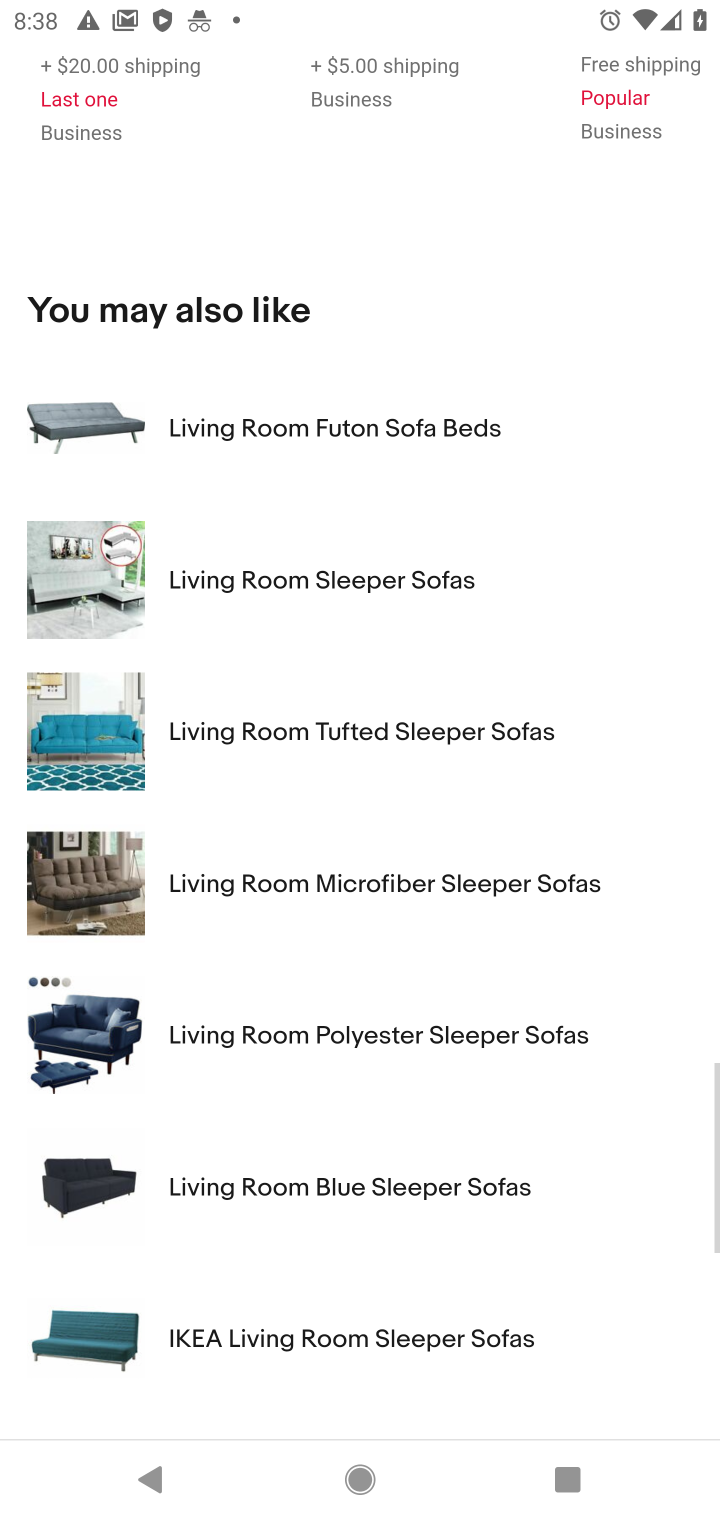
Step 27: drag from (398, 1222) to (479, 121)
Your task to perform on an android device: Find a nice sofa on eBay Image 28: 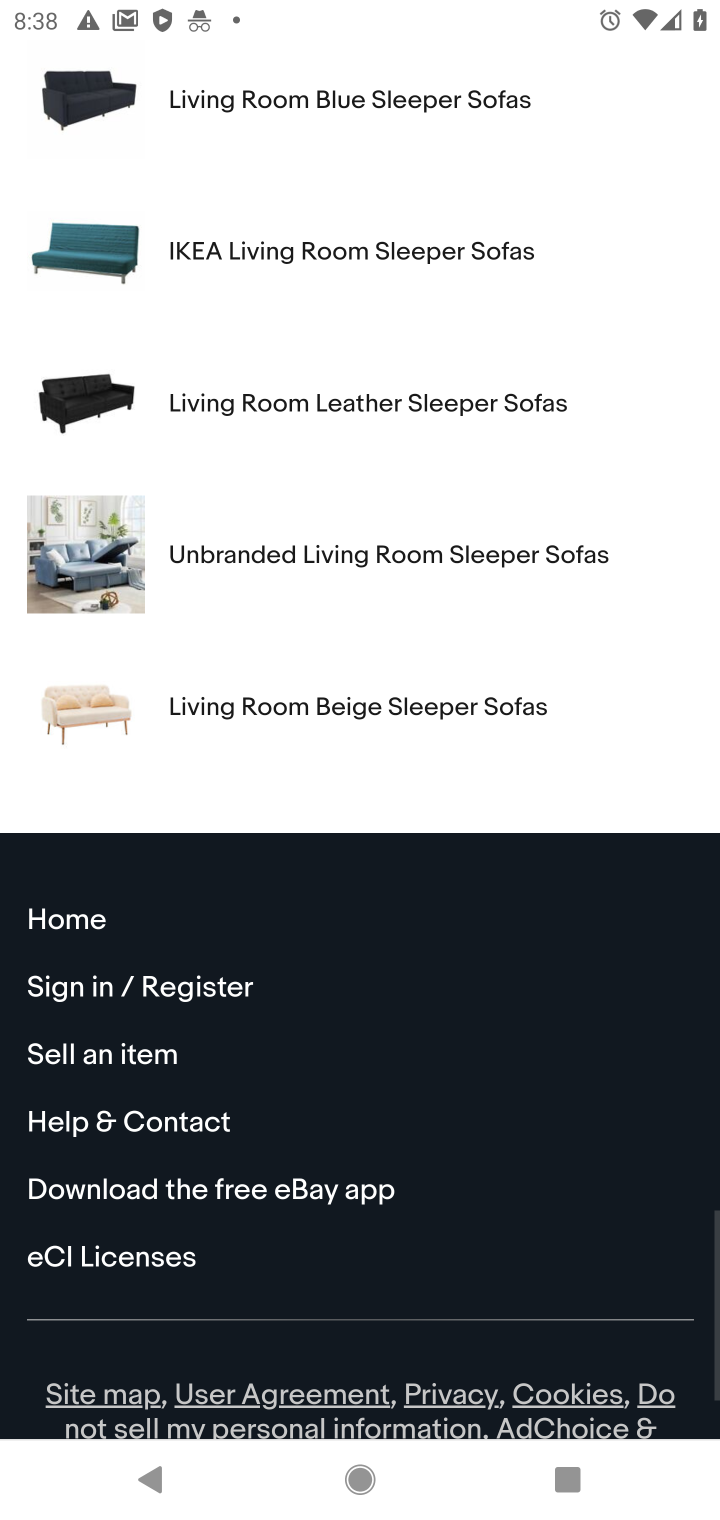
Step 28: drag from (506, 792) to (555, 354)
Your task to perform on an android device: Find a nice sofa on eBay Image 29: 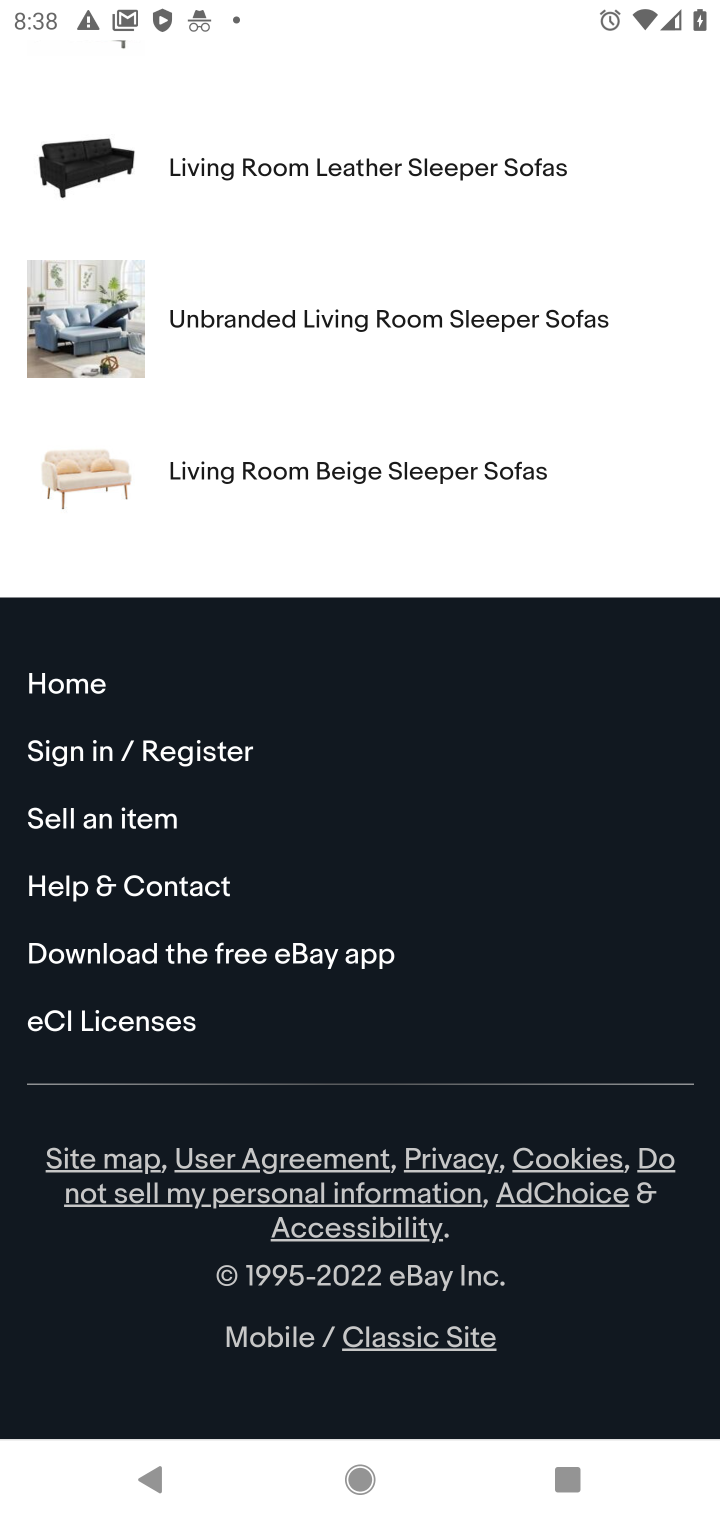
Step 29: drag from (446, 1137) to (476, 356)
Your task to perform on an android device: Find a nice sofa on eBay Image 30: 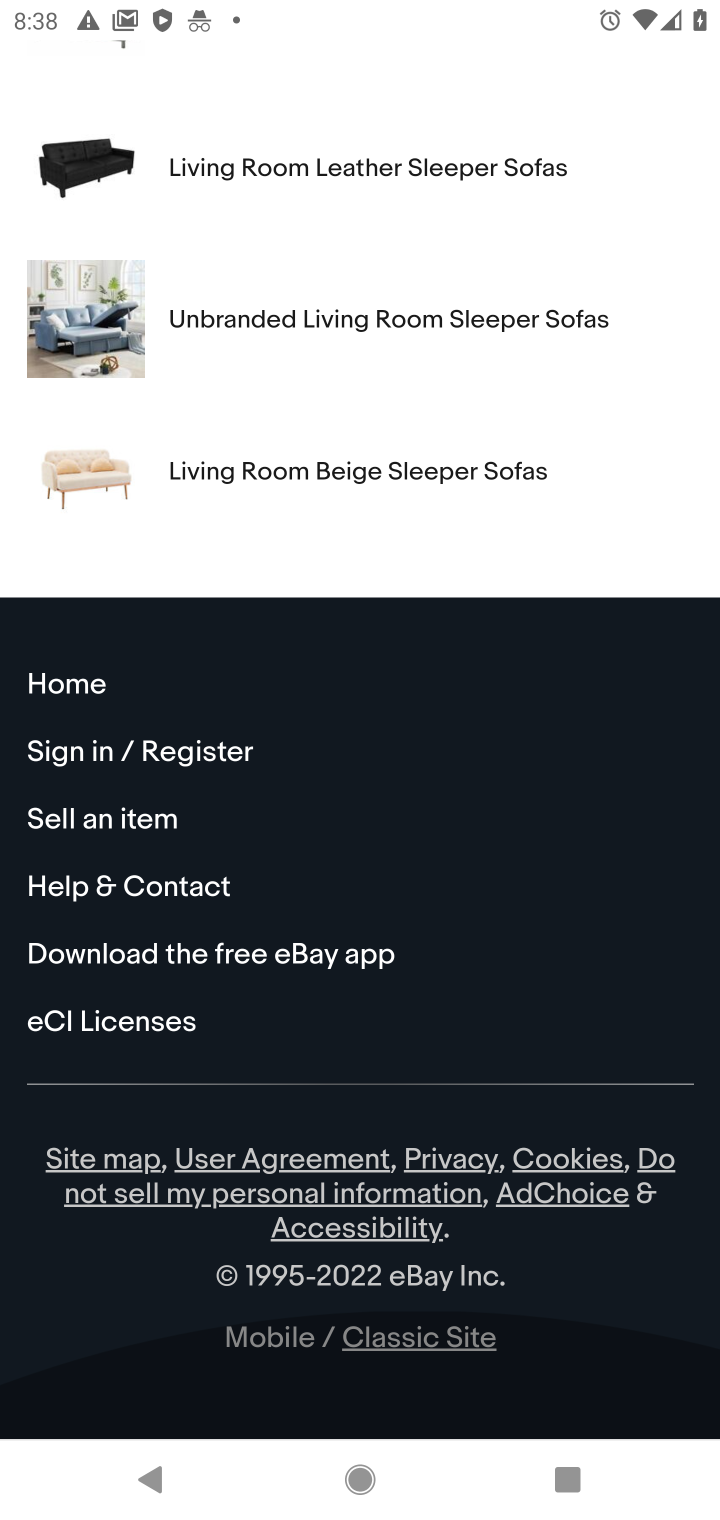
Step 30: click (413, 527)
Your task to perform on an android device: Find a nice sofa on eBay Image 31: 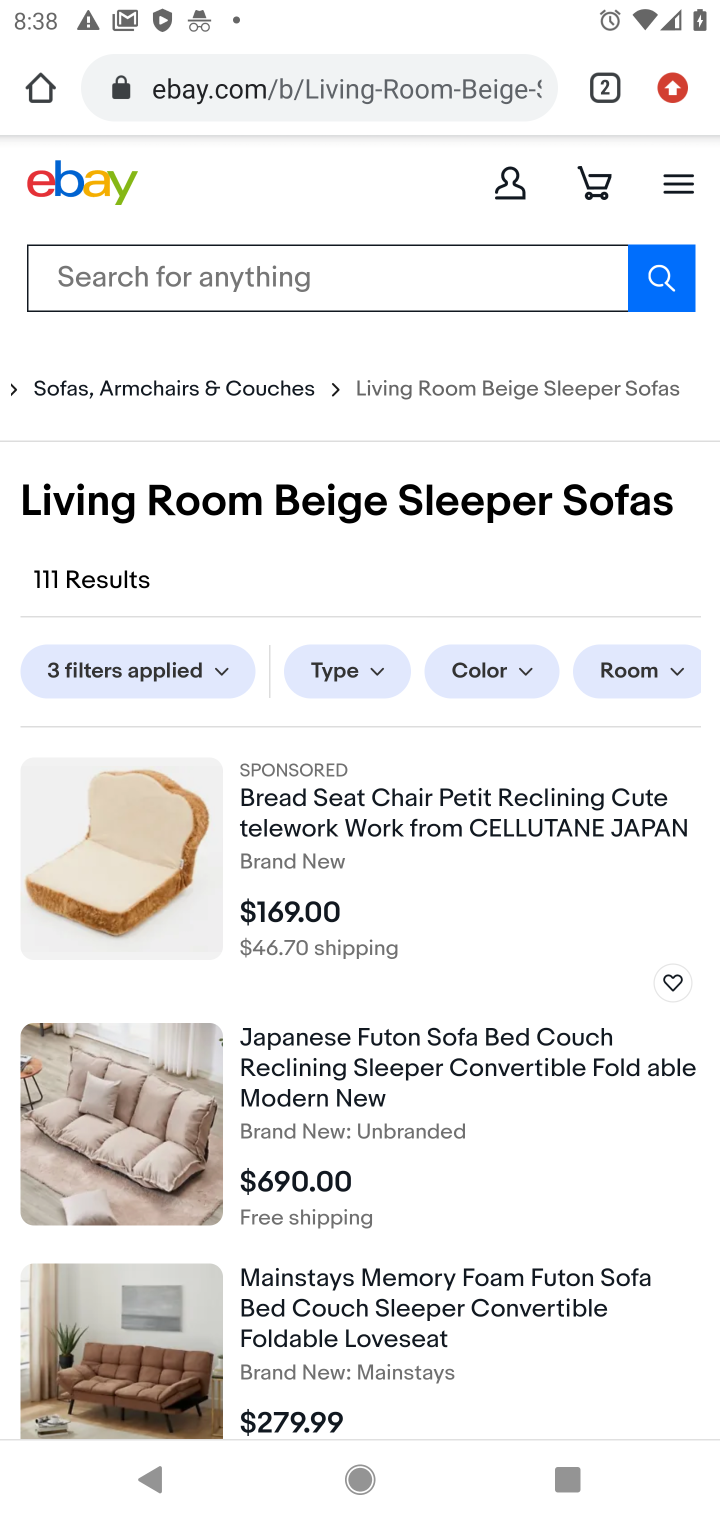
Step 31: drag from (430, 980) to (504, 323)
Your task to perform on an android device: Find a nice sofa on eBay Image 32: 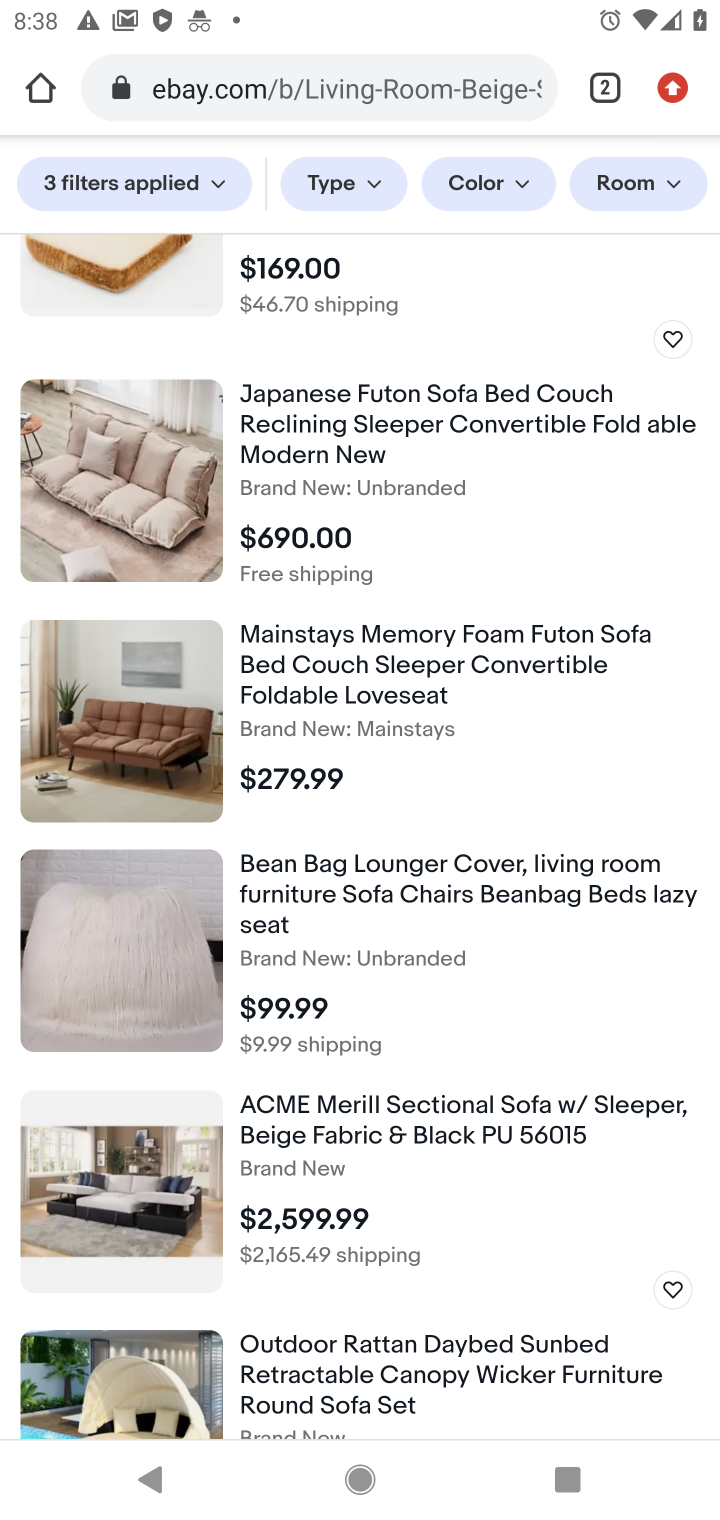
Step 32: click (377, 504)
Your task to perform on an android device: Find a nice sofa on eBay Image 33: 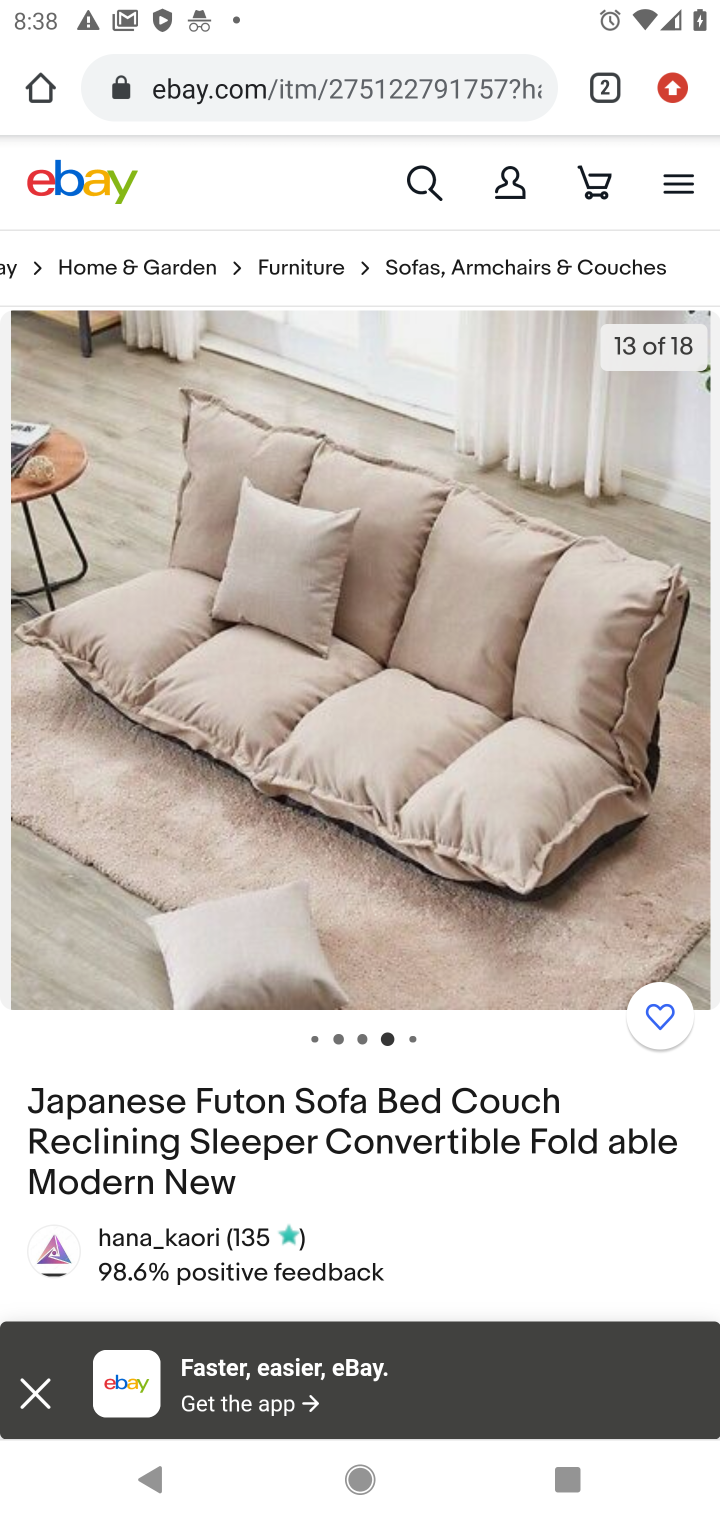
Step 33: drag from (446, 530) to (507, 272)
Your task to perform on an android device: Find a nice sofa on eBay Image 34: 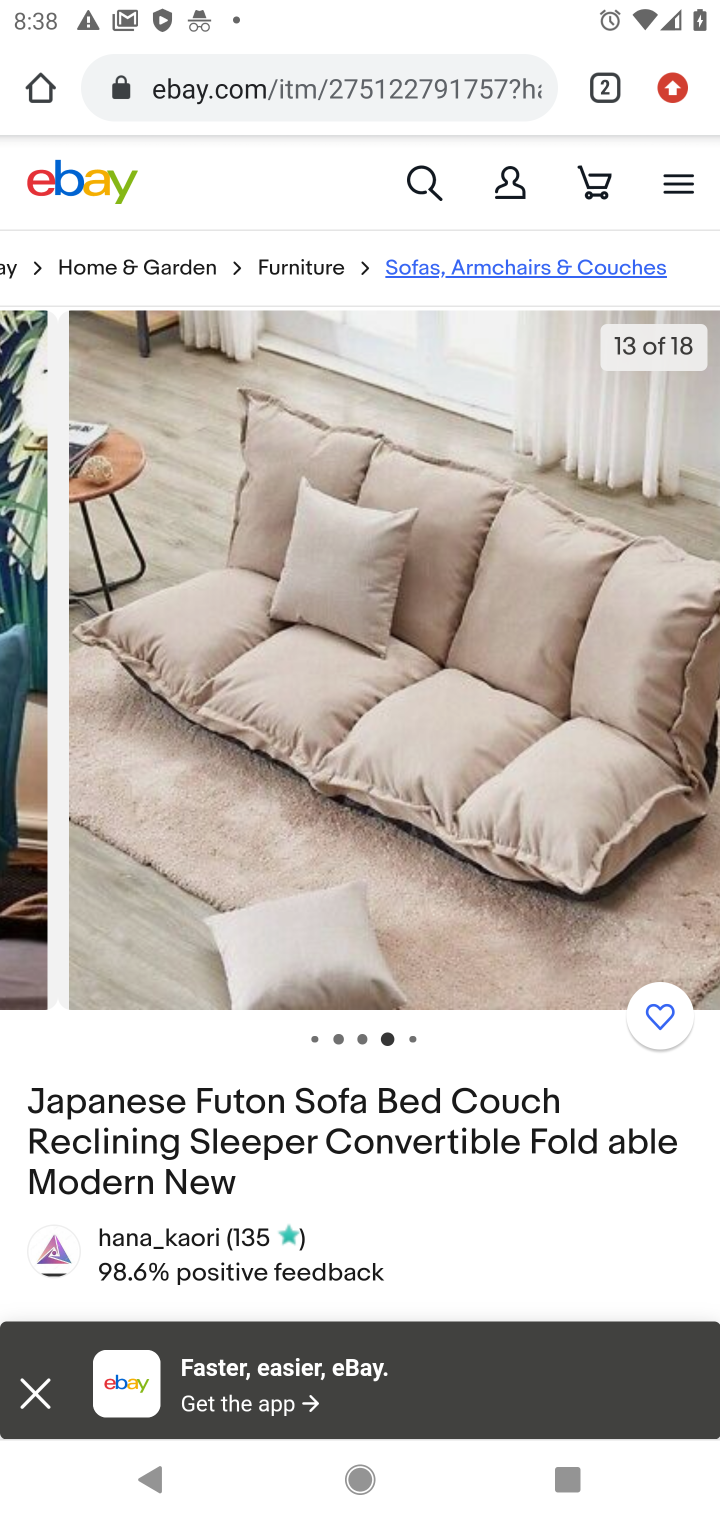
Step 34: click (503, 354)
Your task to perform on an android device: Find a nice sofa on eBay Image 35: 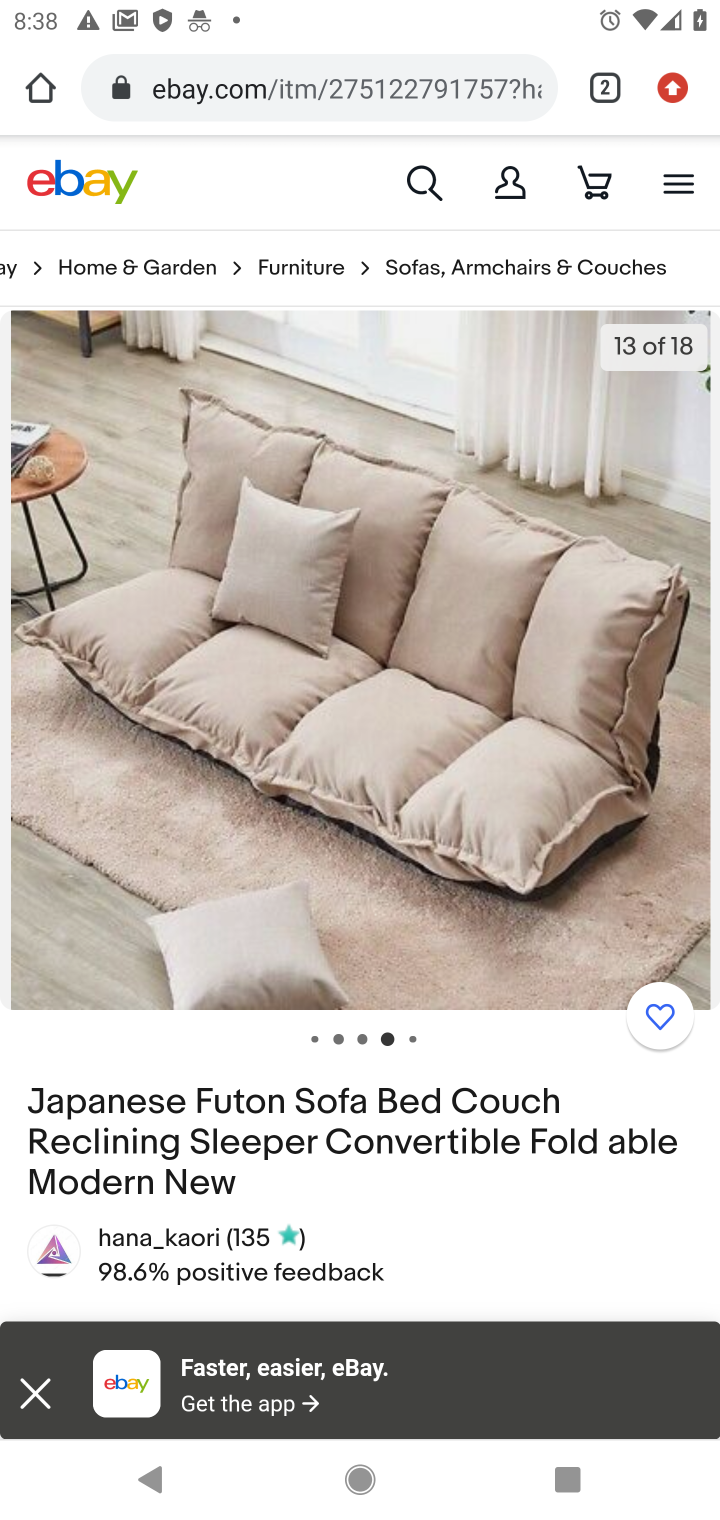
Step 35: task complete